Your task to perform on an android device: Open the settings Image 0: 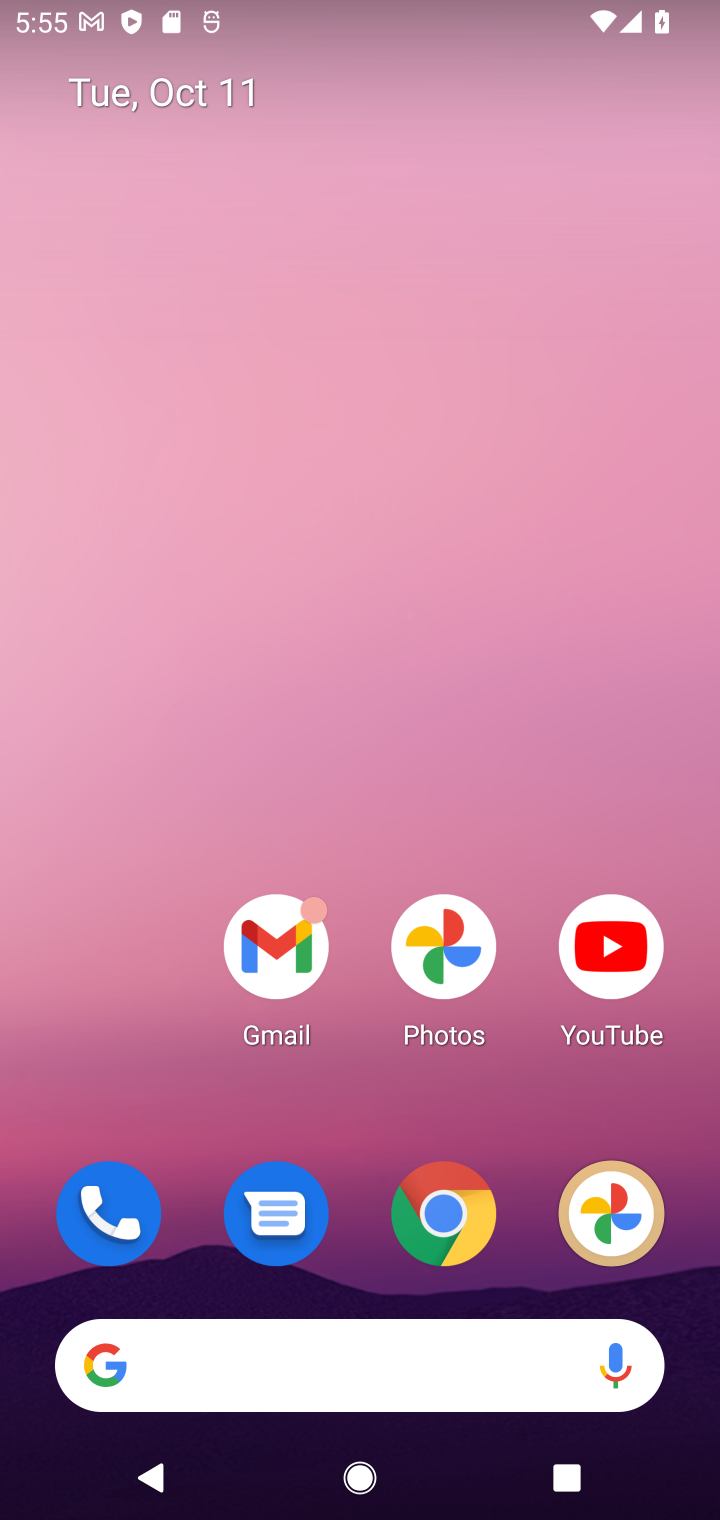
Step 0: click (446, 1226)
Your task to perform on an android device: Open the settings Image 1: 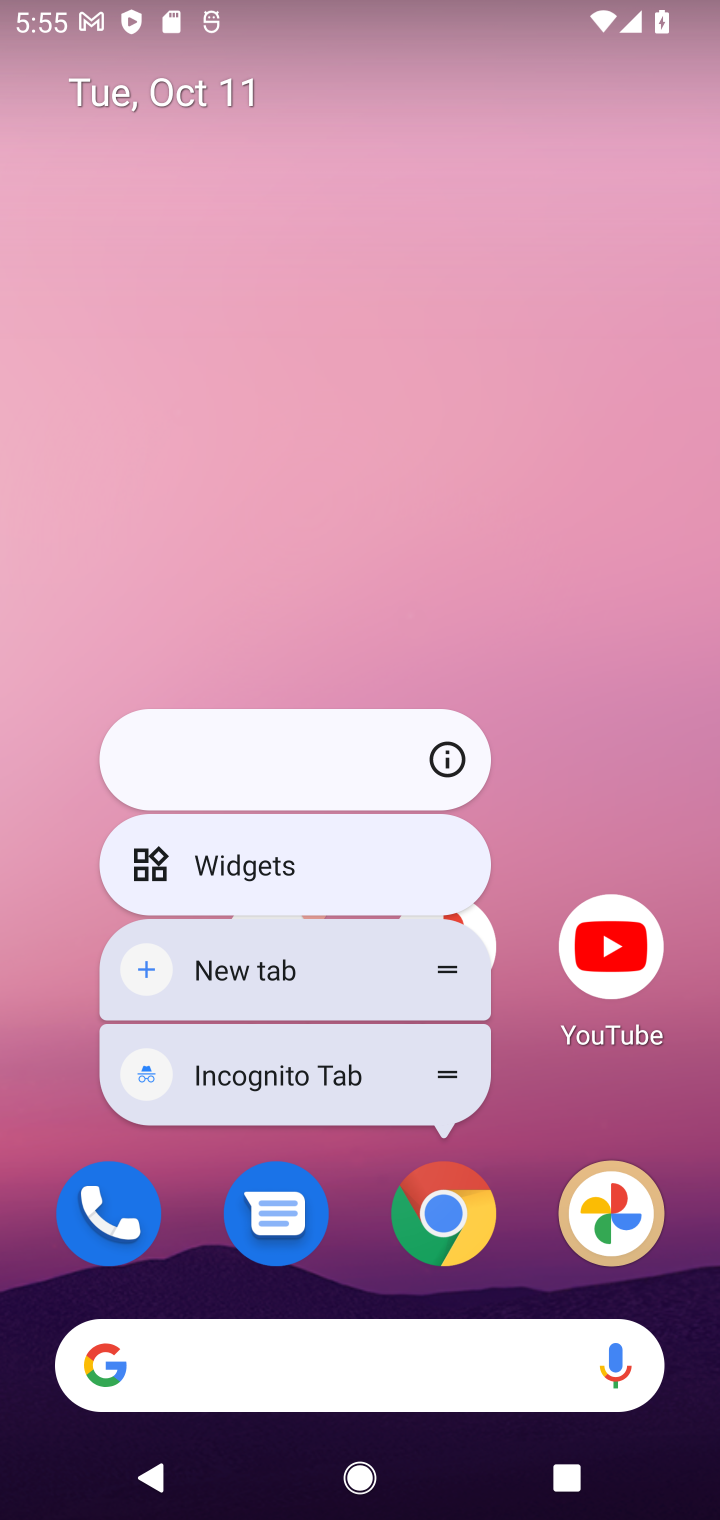
Step 1: click (450, 1249)
Your task to perform on an android device: Open the settings Image 2: 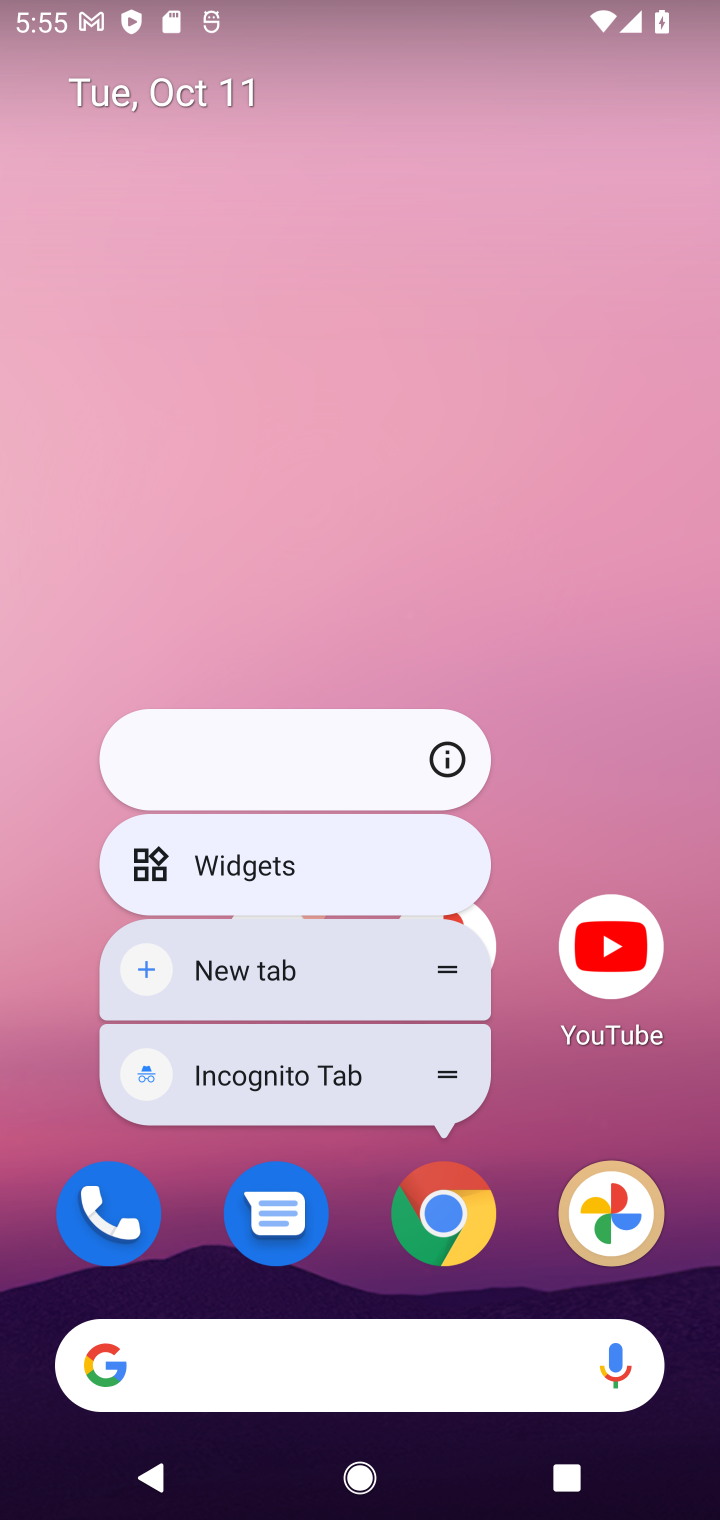
Step 2: drag from (460, 1317) to (501, 6)
Your task to perform on an android device: Open the settings Image 3: 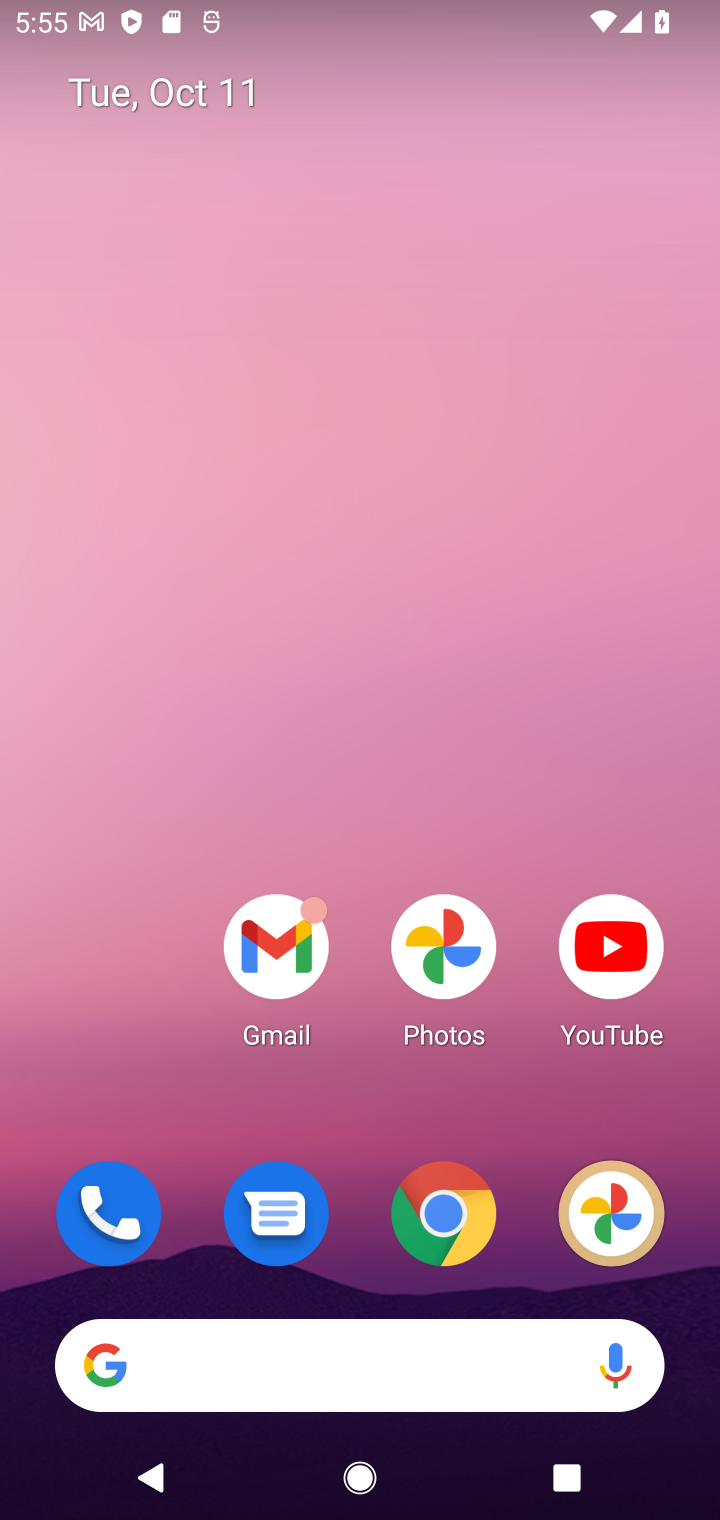
Step 3: drag from (448, 1223) to (386, 208)
Your task to perform on an android device: Open the settings Image 4: 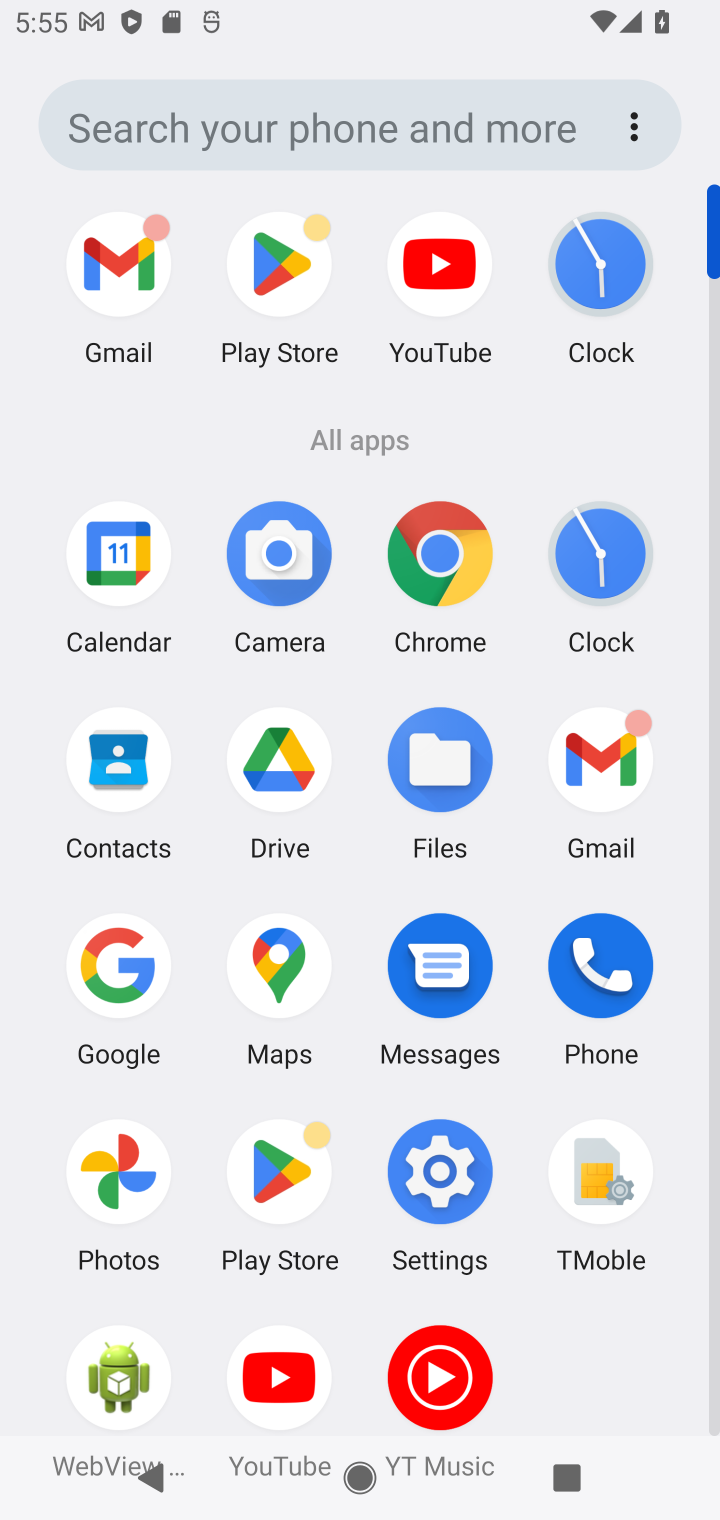
Step 4: click (434, 566)
Your task to perform on an android device: Open the settings Image 5: 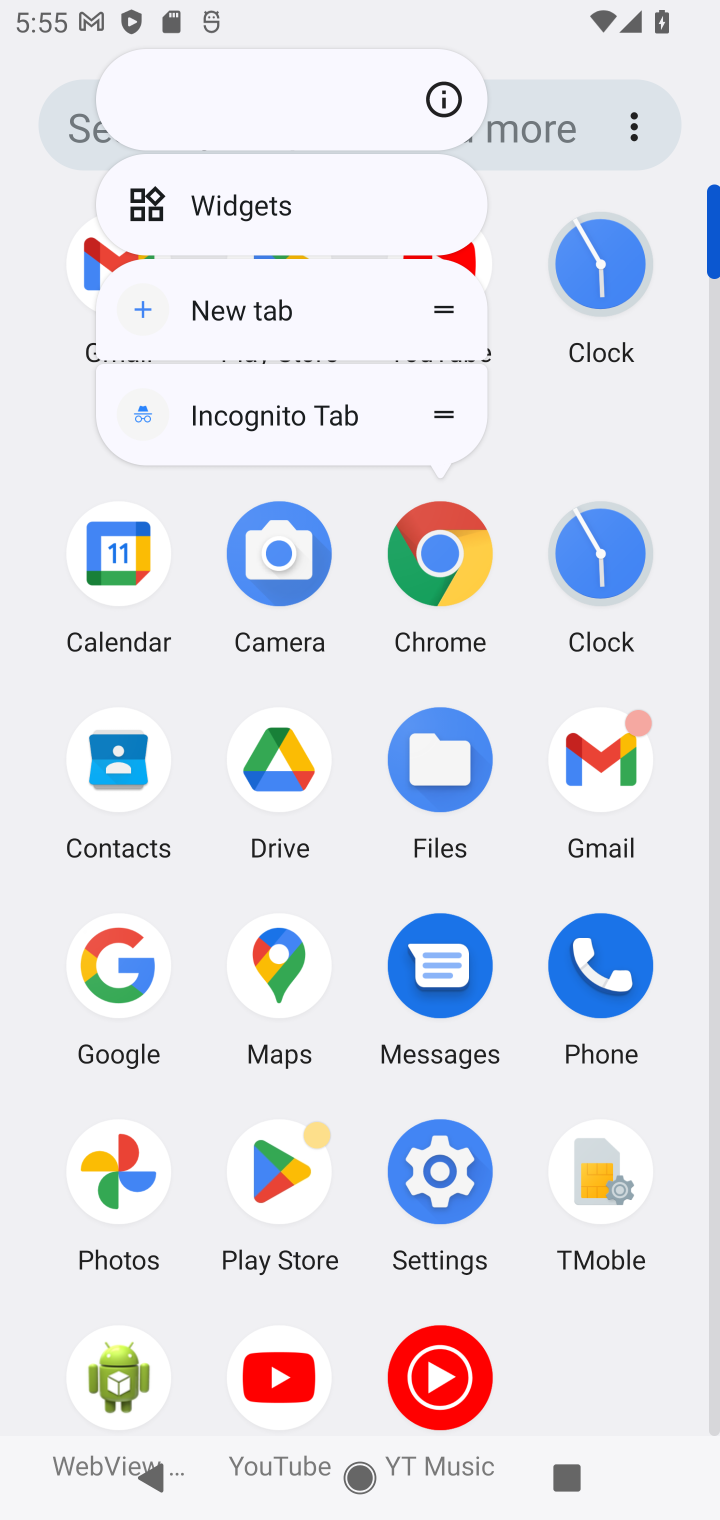
Step 5: click (458, 608)
Your task to perform on an android device: Open the settings Image 6: 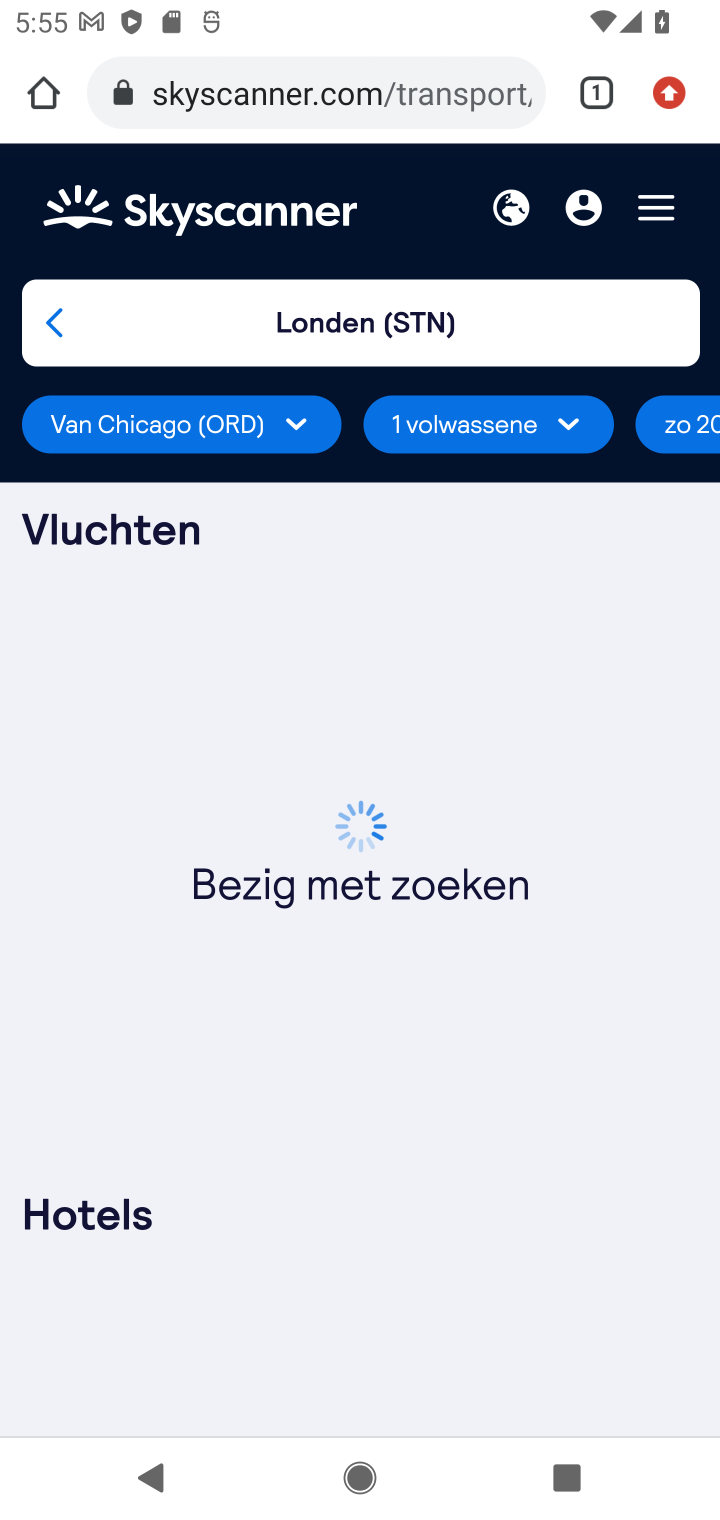
Step 6: click (386, 113)
Your task to perform on an android device: Open the settings Image 7: 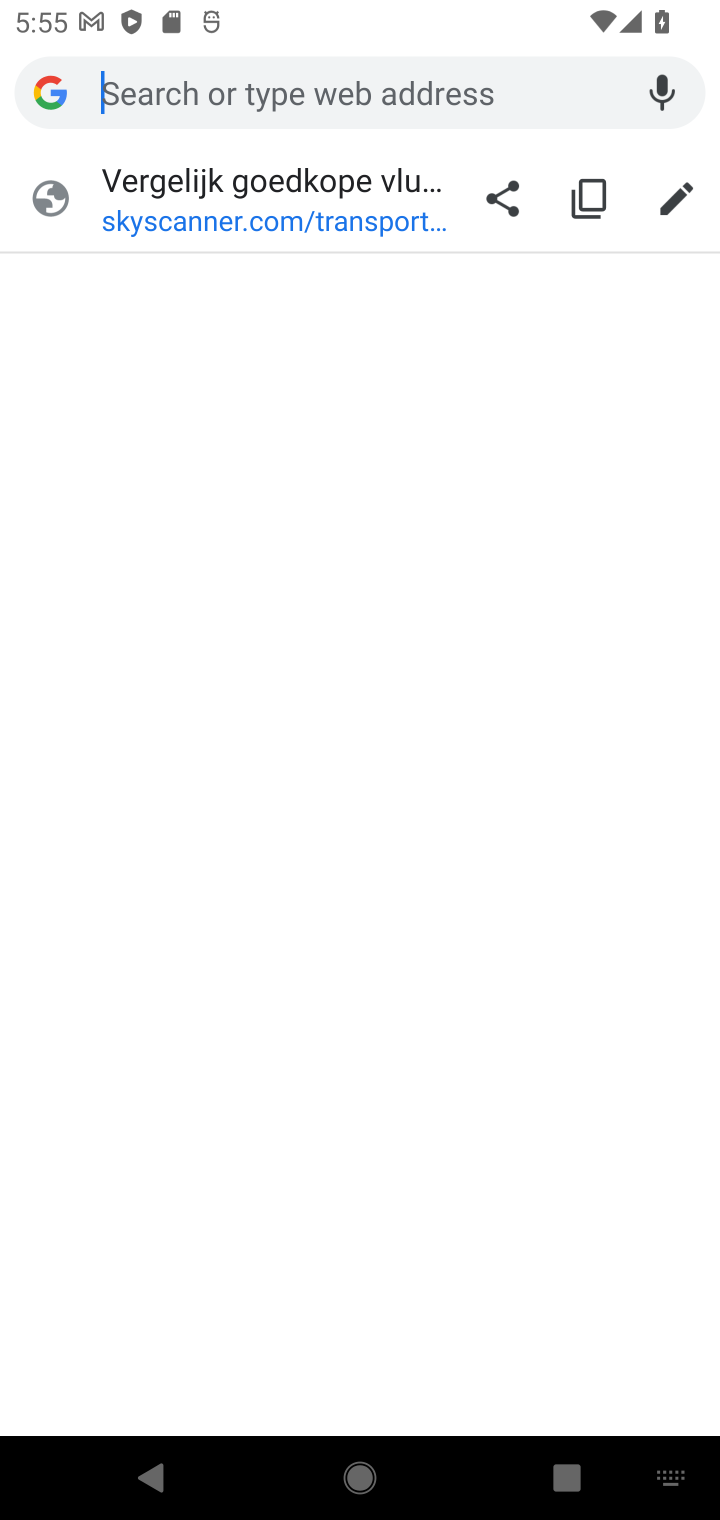
Step 7: press home button
Your task to perform on an android device: Open the settings Image 8: 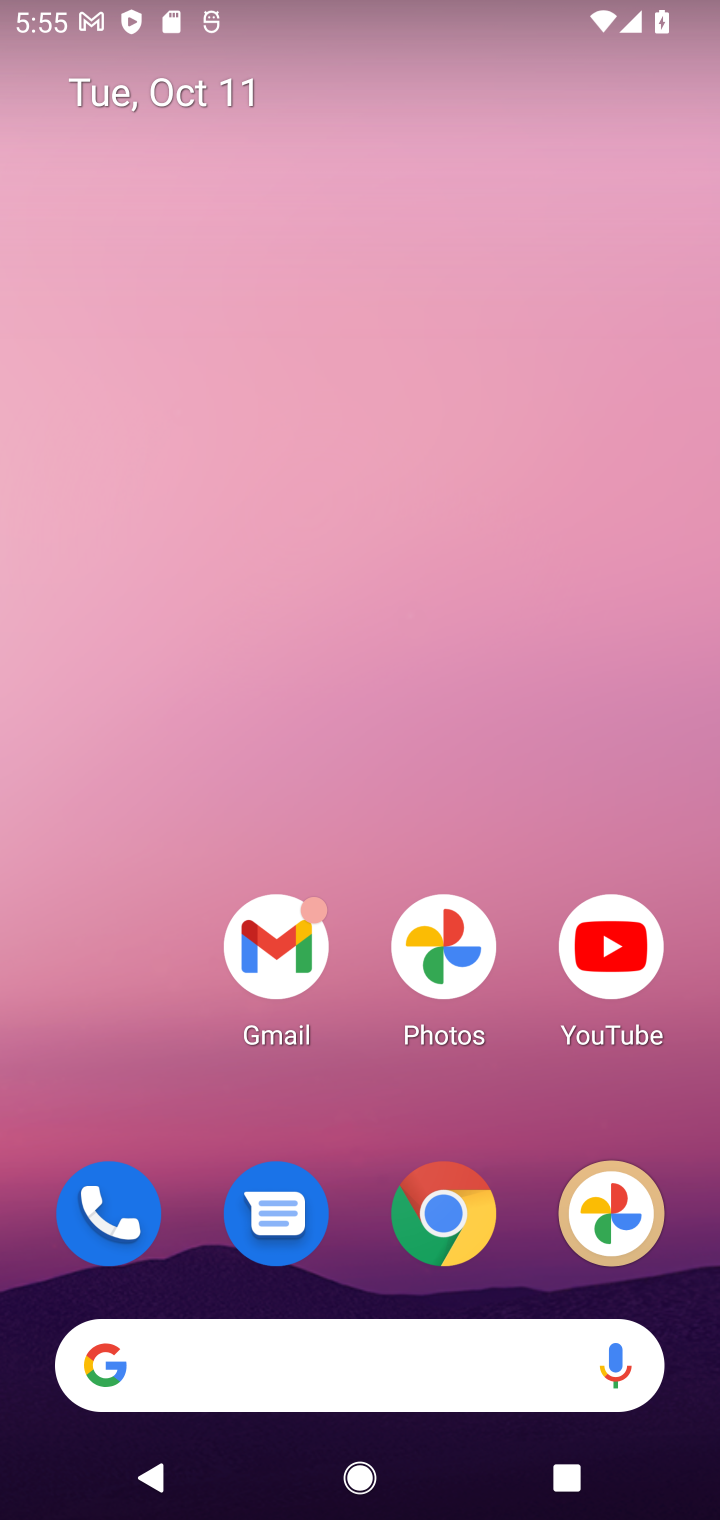
Step 8: drag from (315, 1092) to (429, 123)
Your task to perform on an android device: Open the settings Image 9: 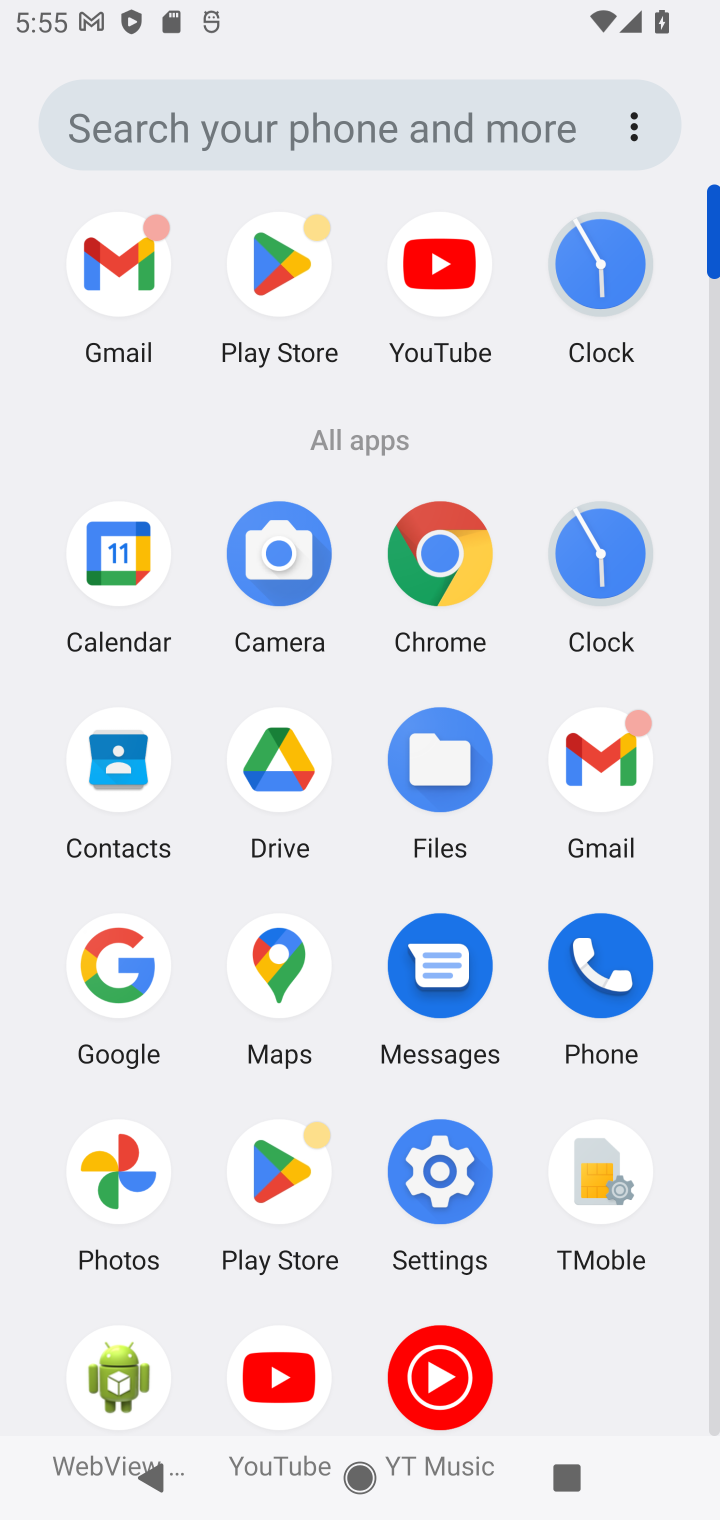
Step 9: click (423, 1167)
Your task to perform on an android device: Open the settings Image 10: 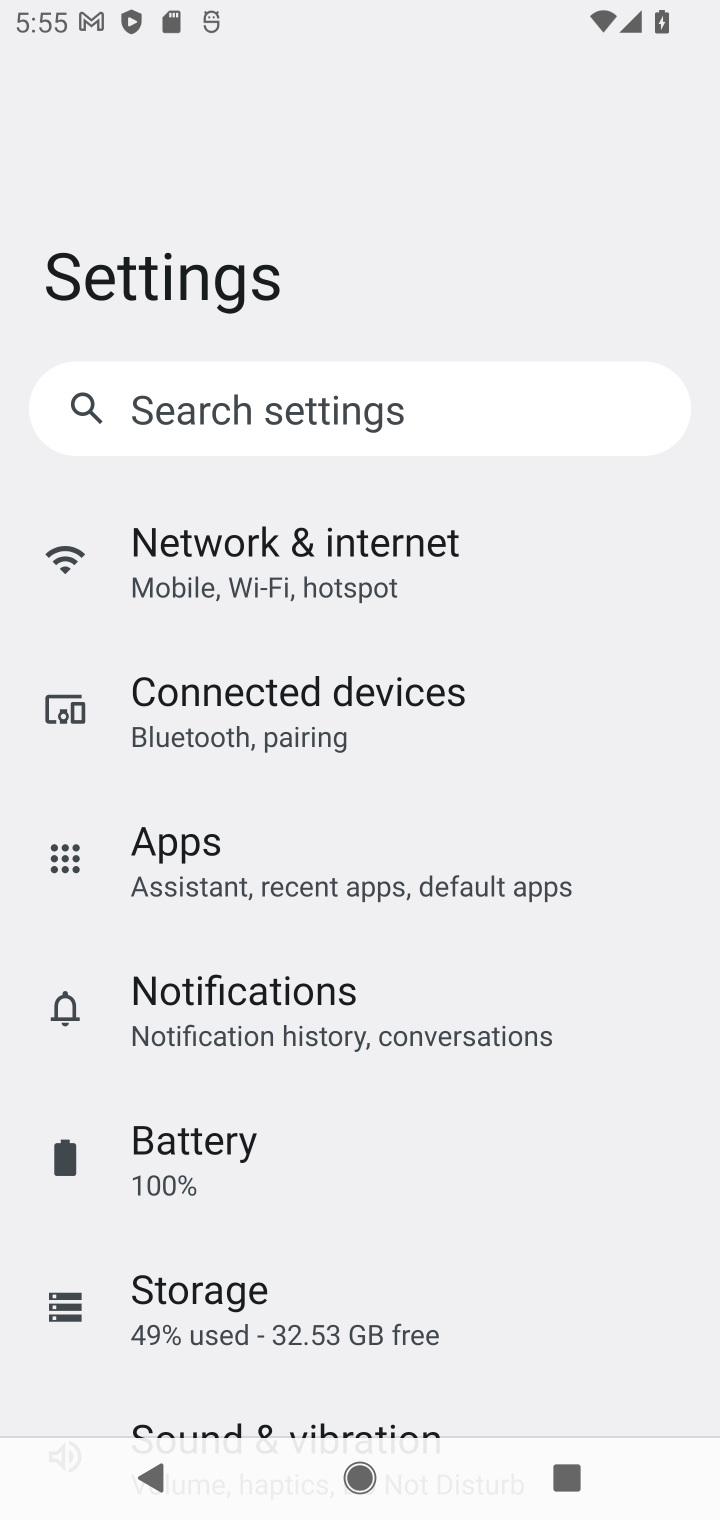
Step 10: drag from (443, 1209) to (487, 522)
Your task to perform on an android device: Open the settings Image 11: 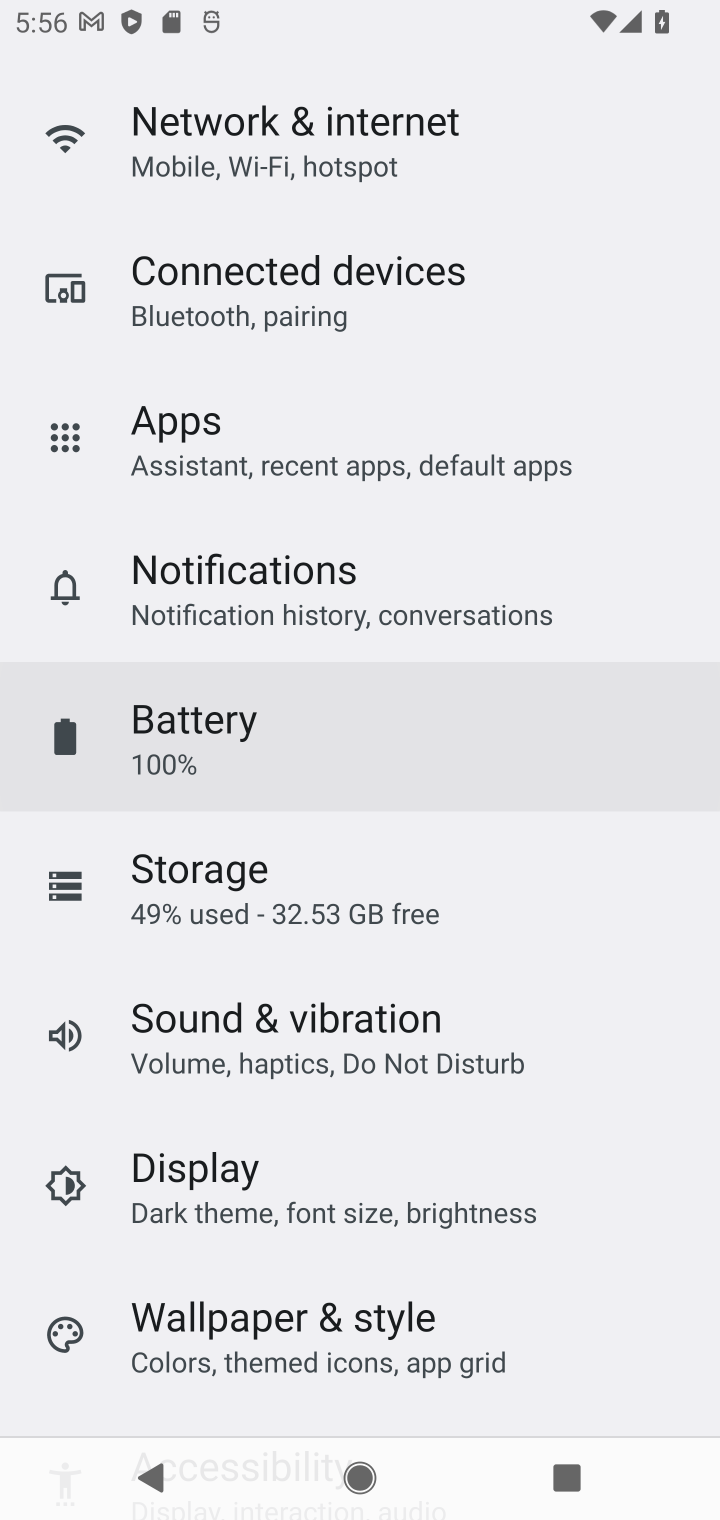
Step 11: drag from (508, 1006) to (540, 450)
Your task to perform on an android device: Open the settings Image 12: 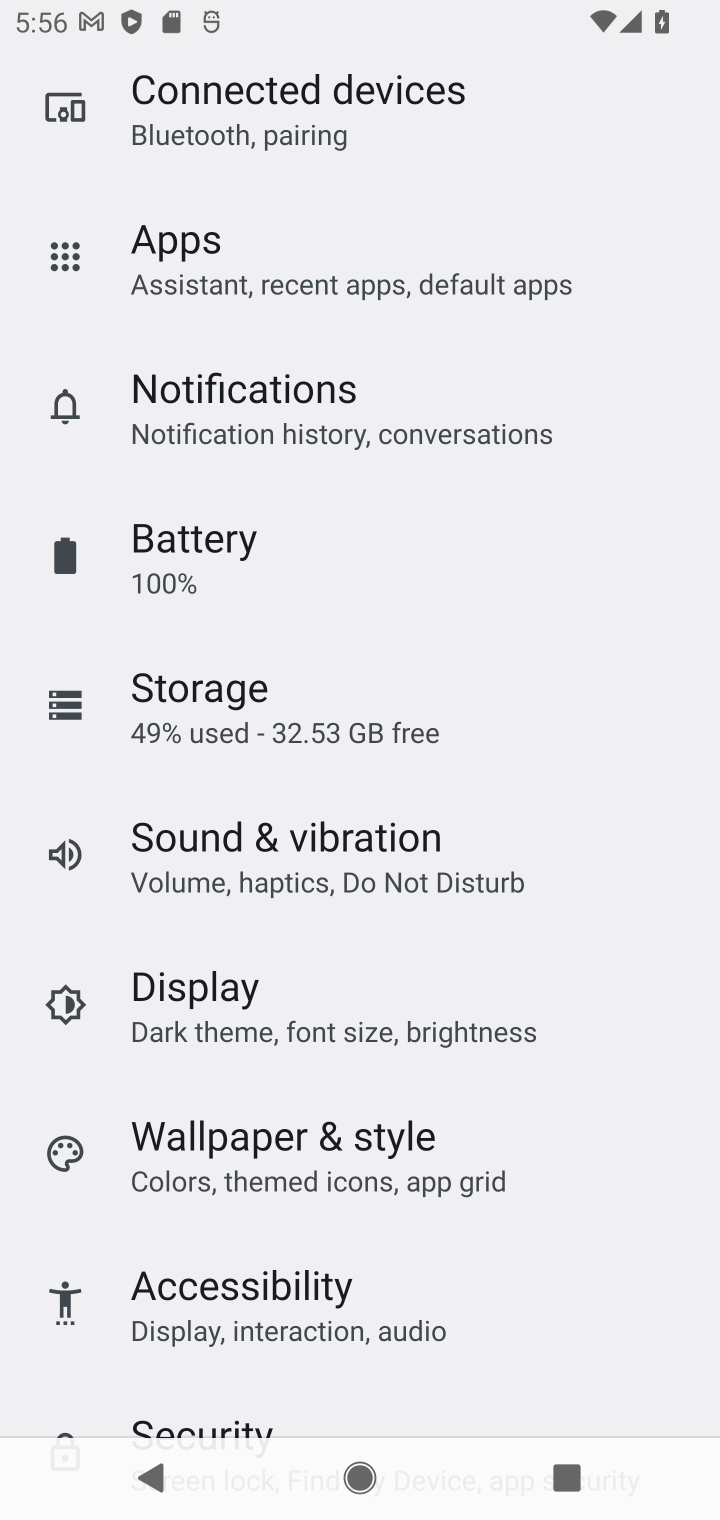
Step 12: click (405, 135)
Your task to perform on an android device: Open the settings Image 13: 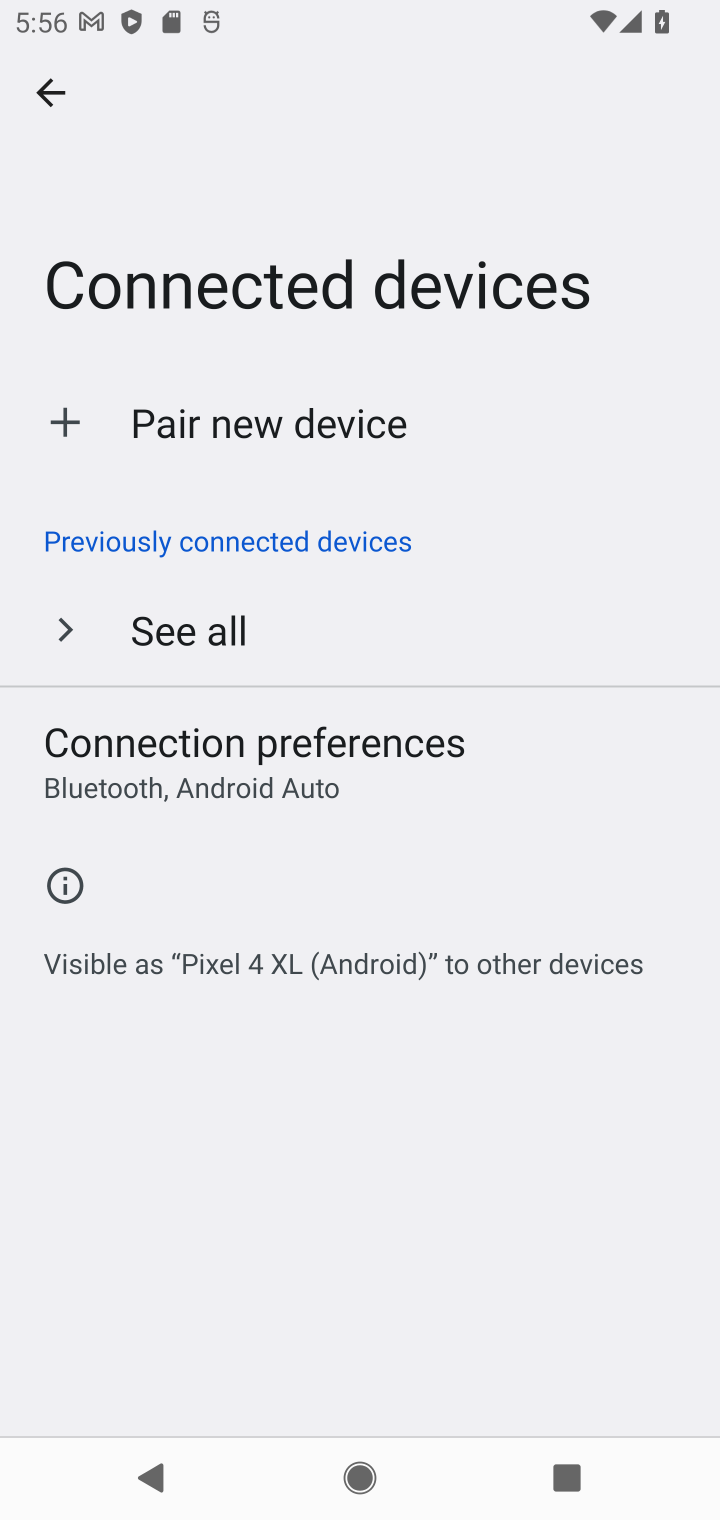
Step 13: press back button
Your task to perform on an android device: Open the settings Image 14: 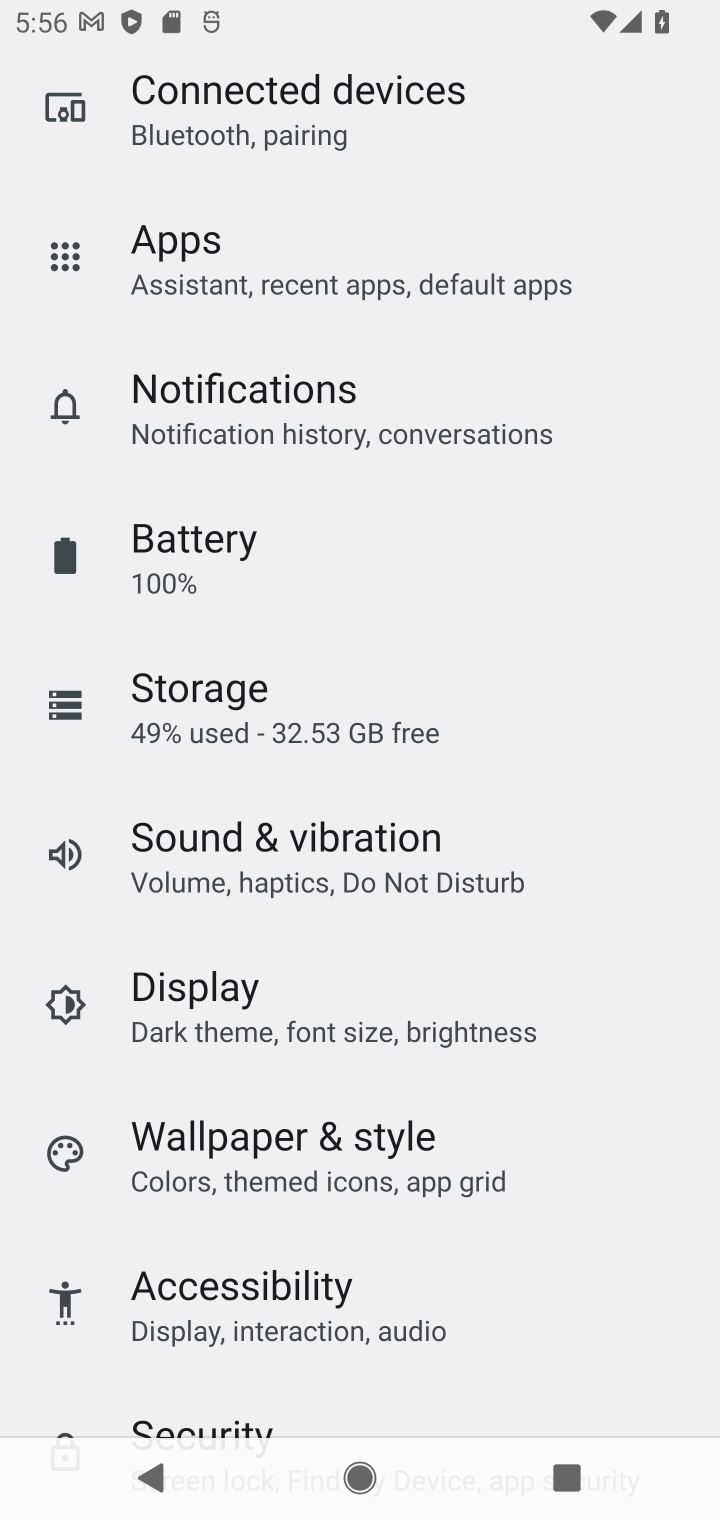
Step 14: click (574, 321)
Your task to perform on an android device: Open the settings Image 15: 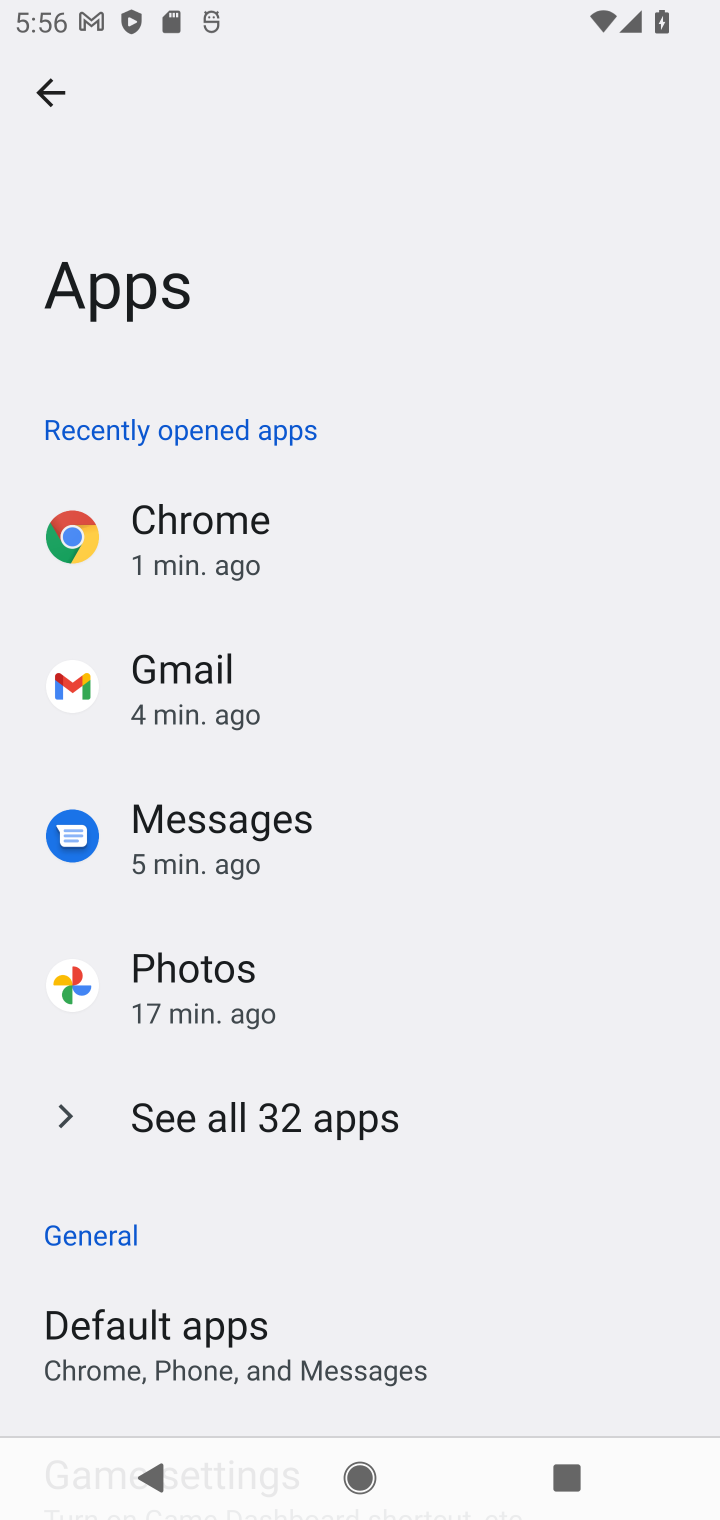
Step 15: click (361, 572)
Your task to perform on an android device: Open the settings Image 16: 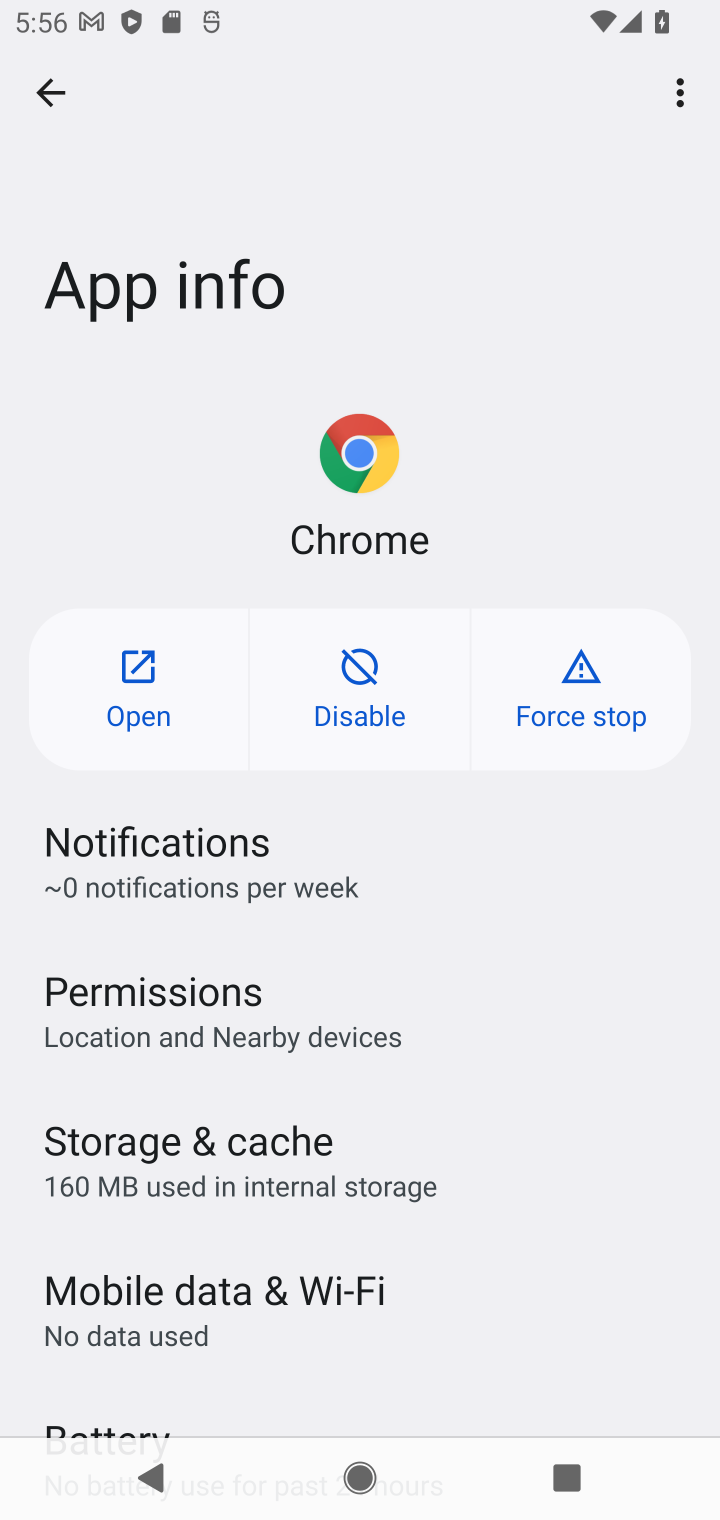
Step 16: drag from (586, 1110) to (532, 553)
Your task to perform on an android device: Open the settings Image 17: 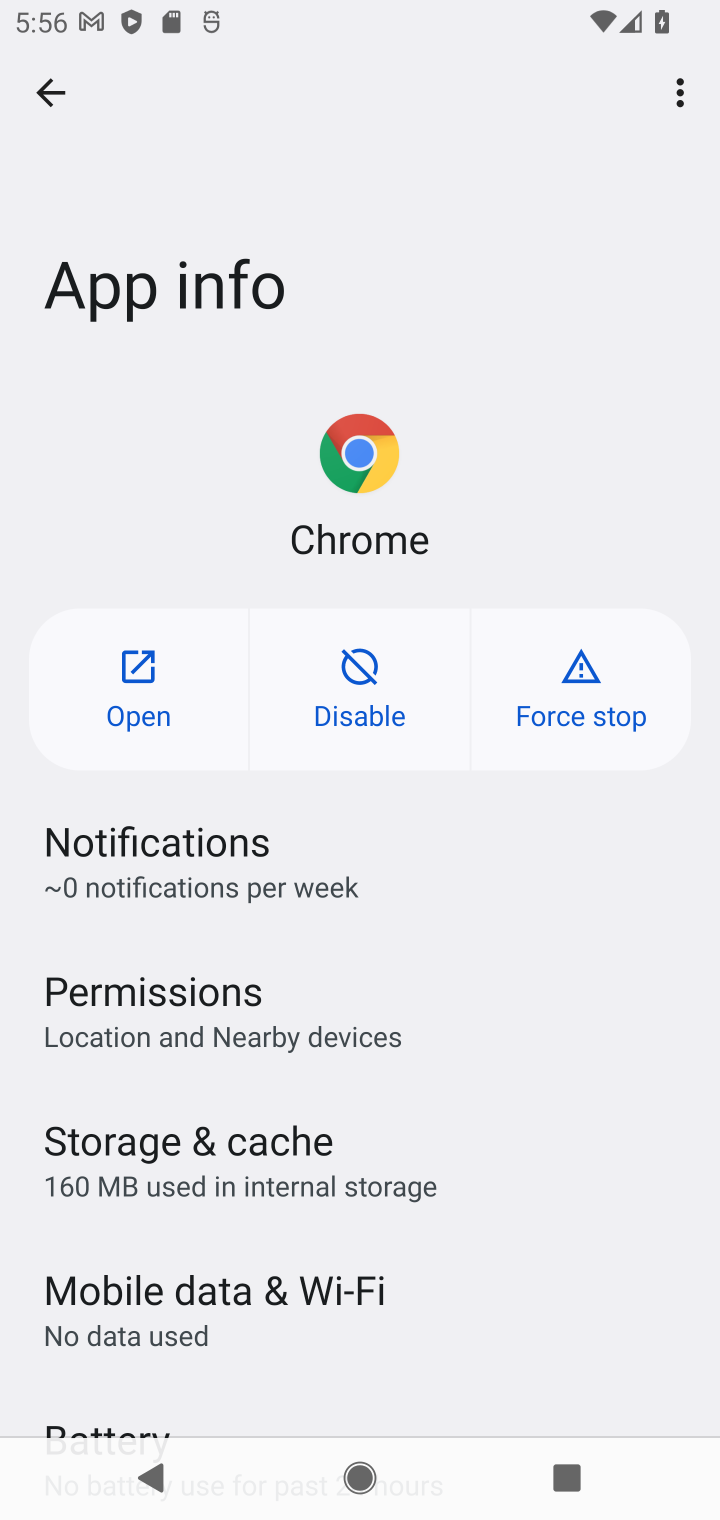
Step 17: drag from (480, 1087) to (601, 410)
Your task to perform on an android device: Open the settings Image 18: 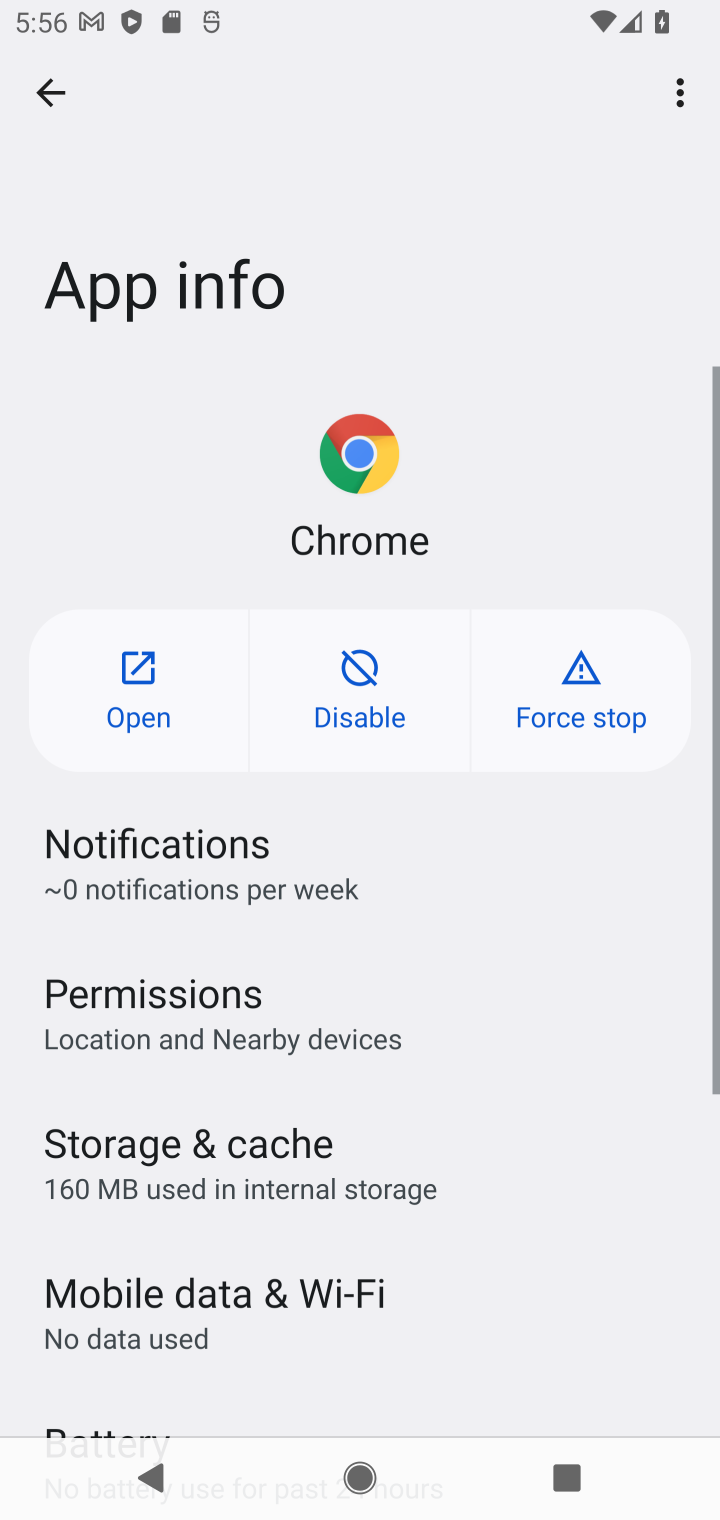
Step 18: drag from (611, 284) to (615, 208)
Your task to perform on an android device: Open the settings Image 19: 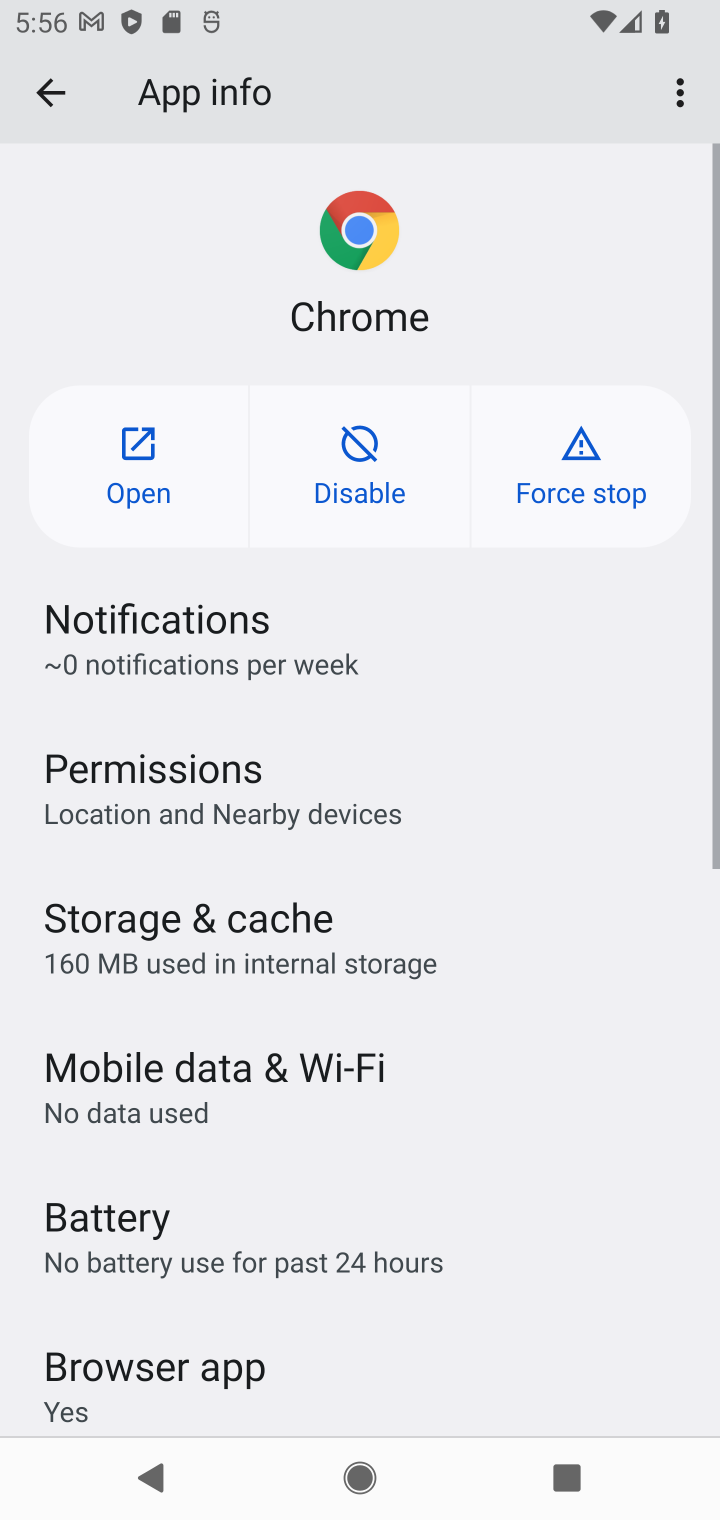
Step 19: drag from (512, 718) to (511, 312)
Your task to perform on an android device: Open the settings Image 20: 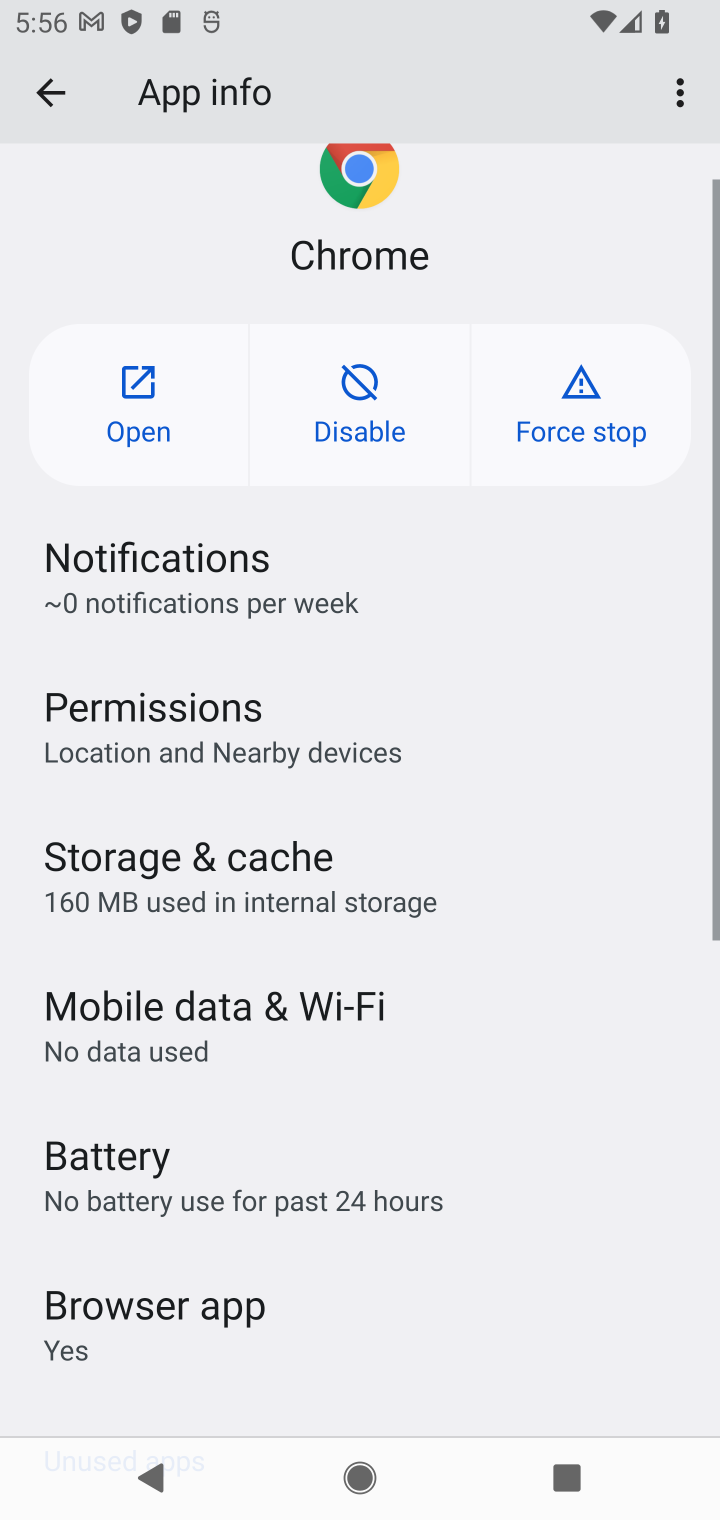
Step 20: drag from (517, 305) to (508, 222)
Your task to perform on an android device: Open the settings Image 21: 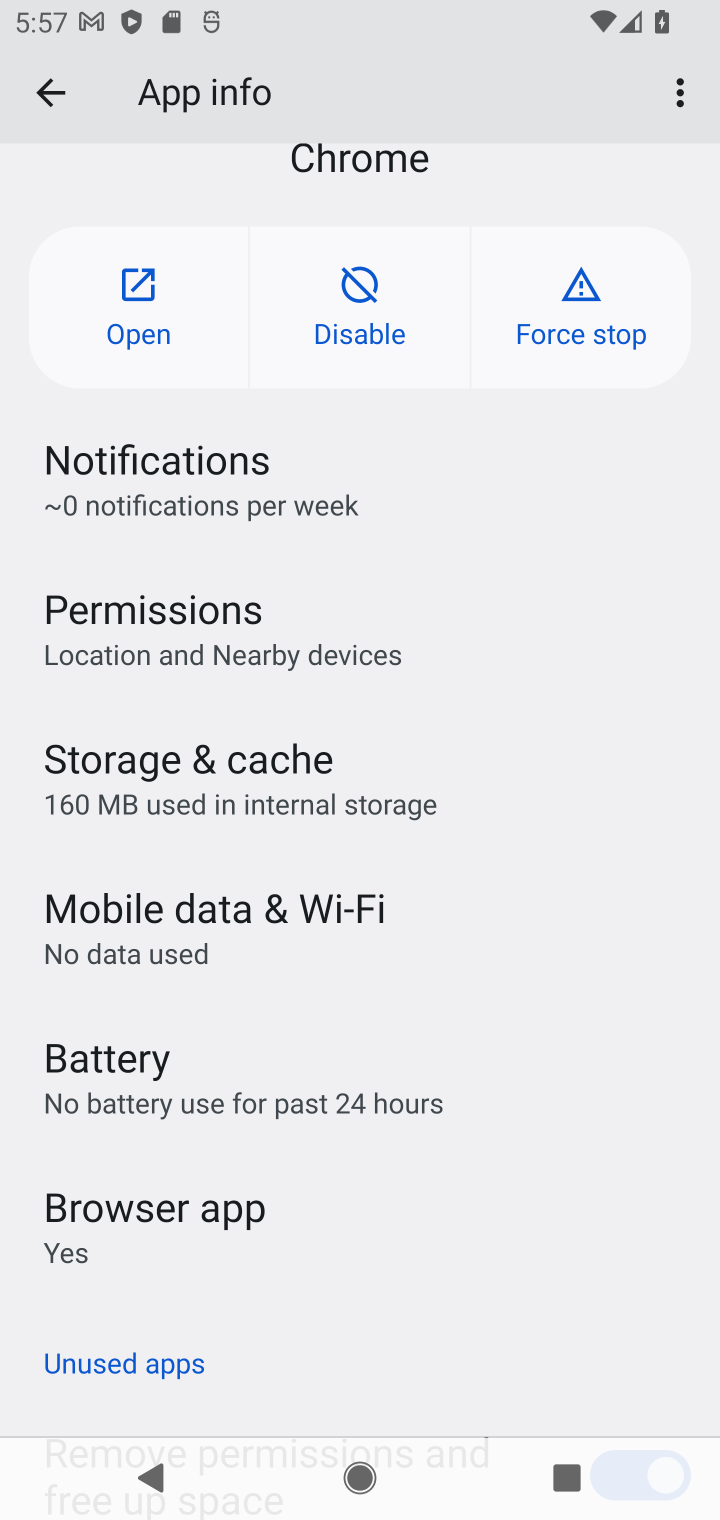
Step 21: click (84, 90)
Your task to perform on an android device: Open the settings Image 22: 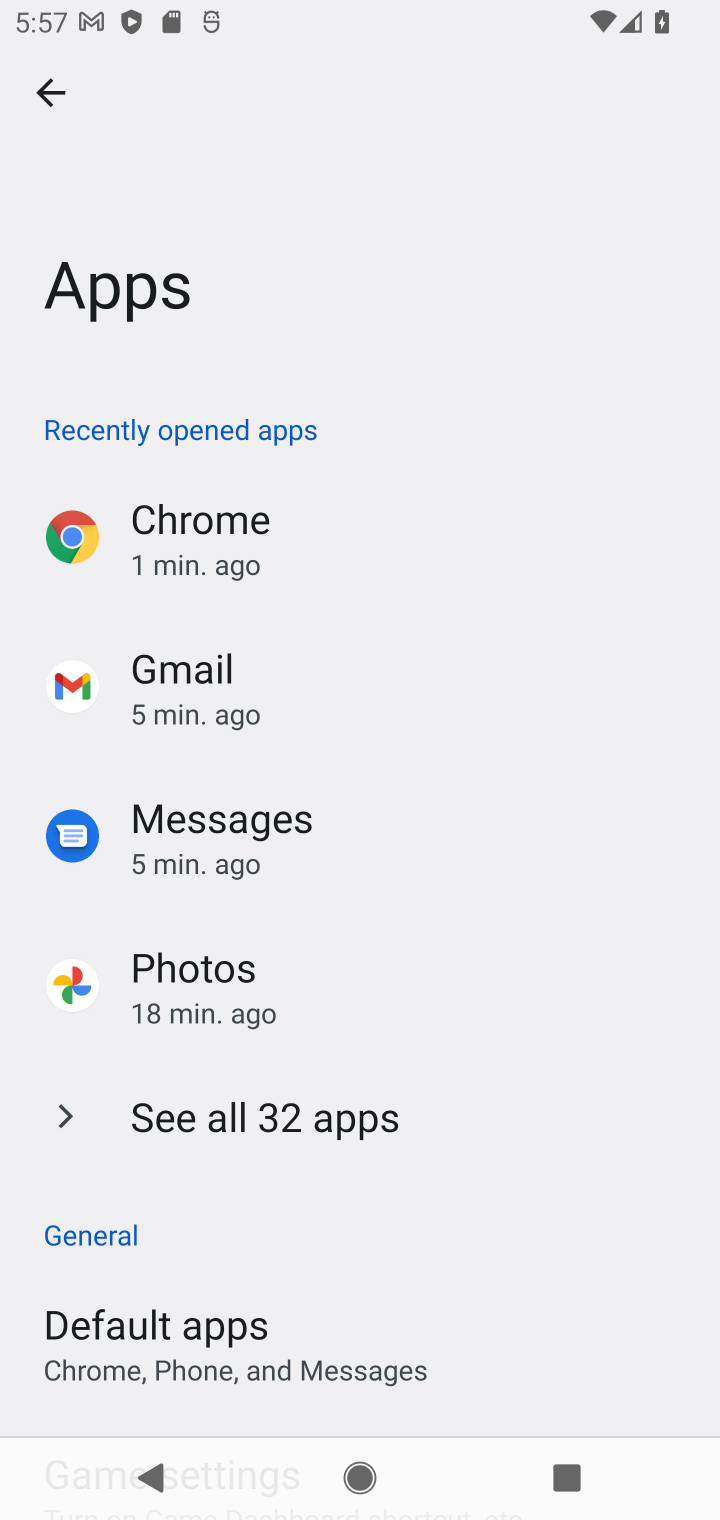
Step 22: click (69, 109)
Your task to perform on an android device: Open the settings Image 23: 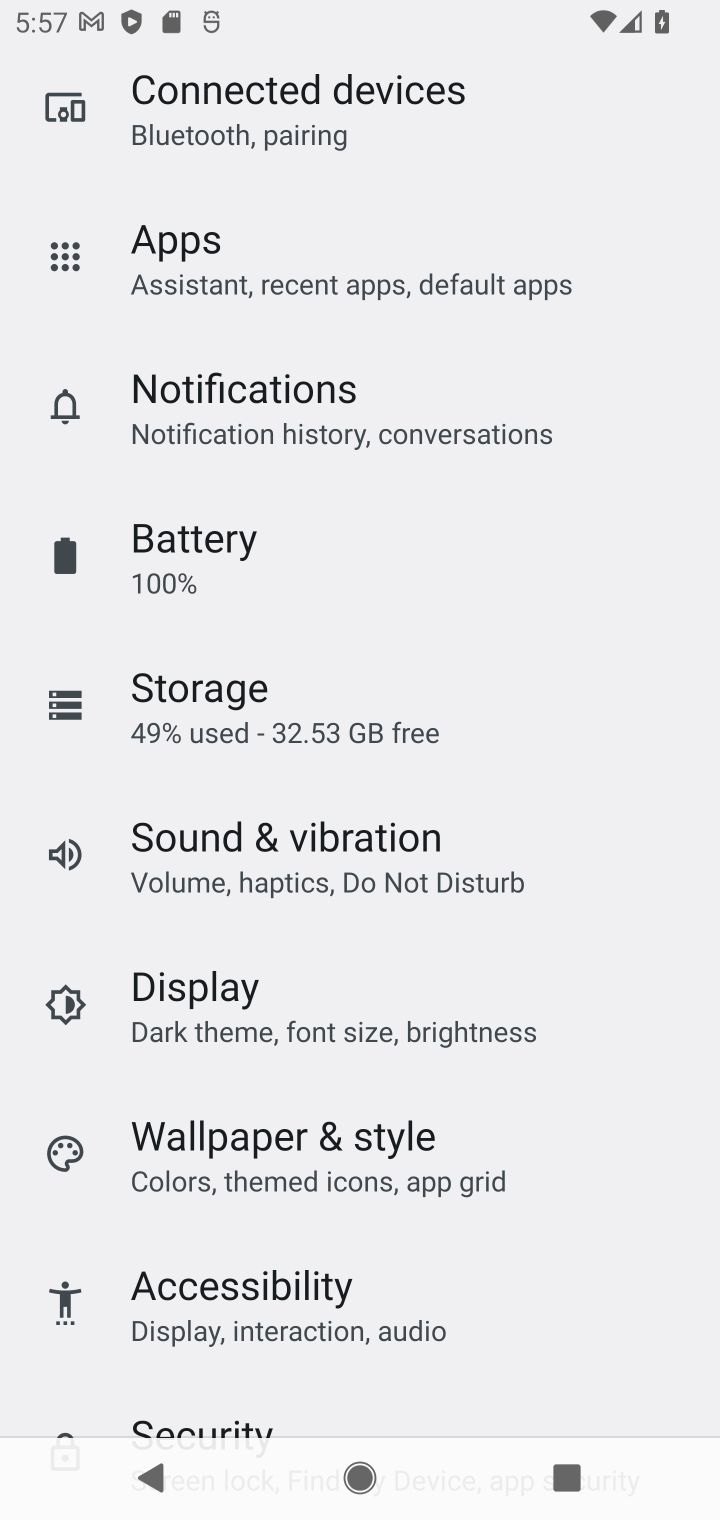
Step 23: click (268, 734)
Your task to perform on an android device: Open the settings Image 24: 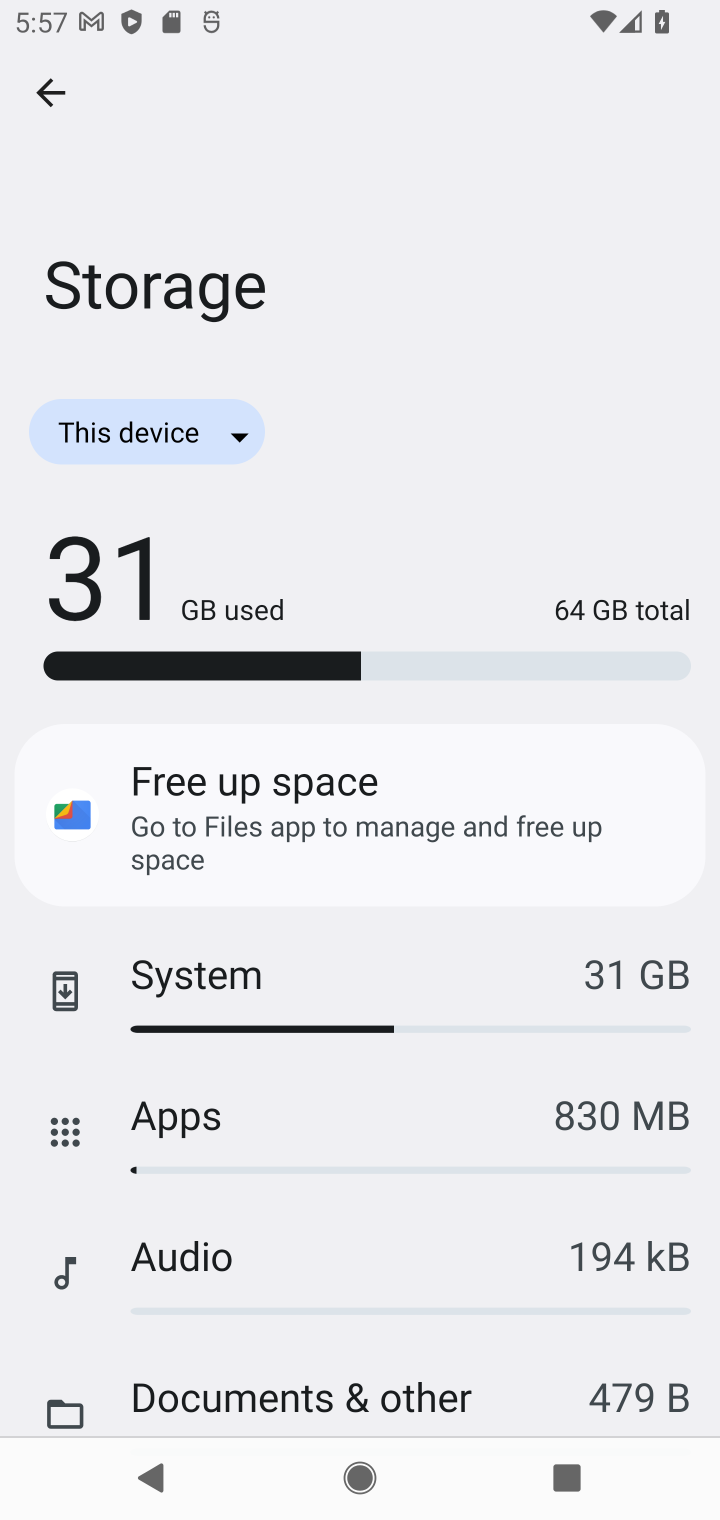
Step 24: drag from (279, 840) to (326, 135)
Your task to perform on an android device: Open the settings Image 25: 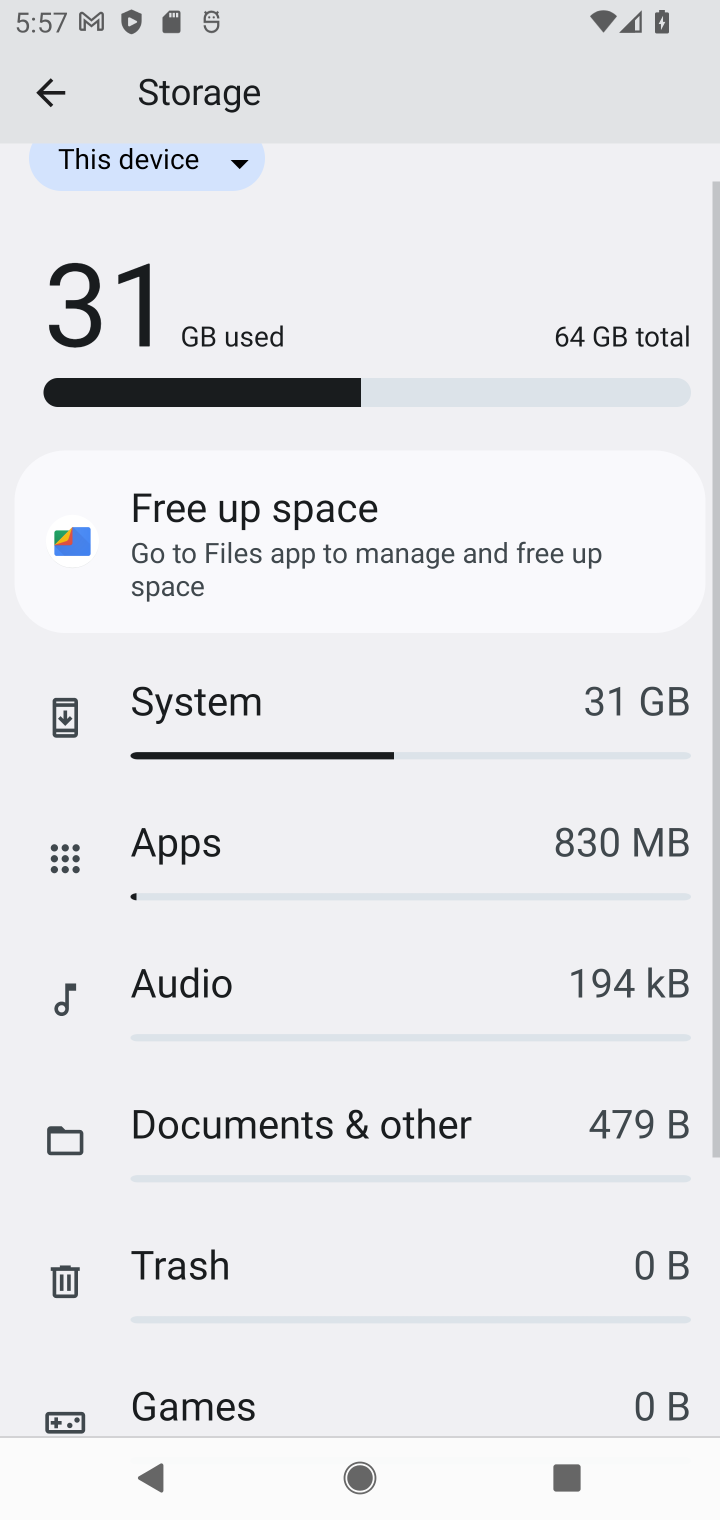
Step 25: drag from (318, 847) to (349, 454)
Your task to perform on an android device: Open the settings Image 26: 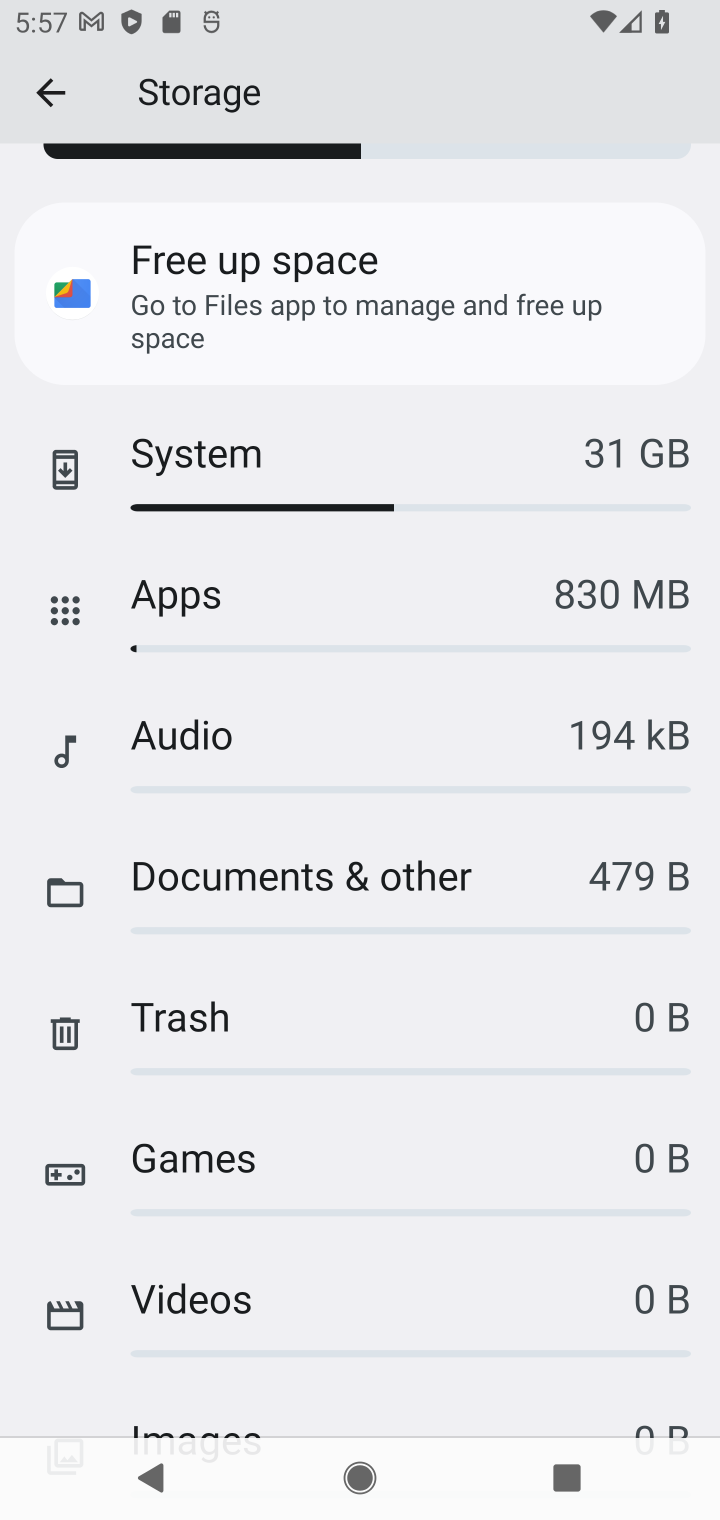
Step 26: drag from (303, 870) to (363, 476)
Your task to perform on an android device: Open the settings Image 27: 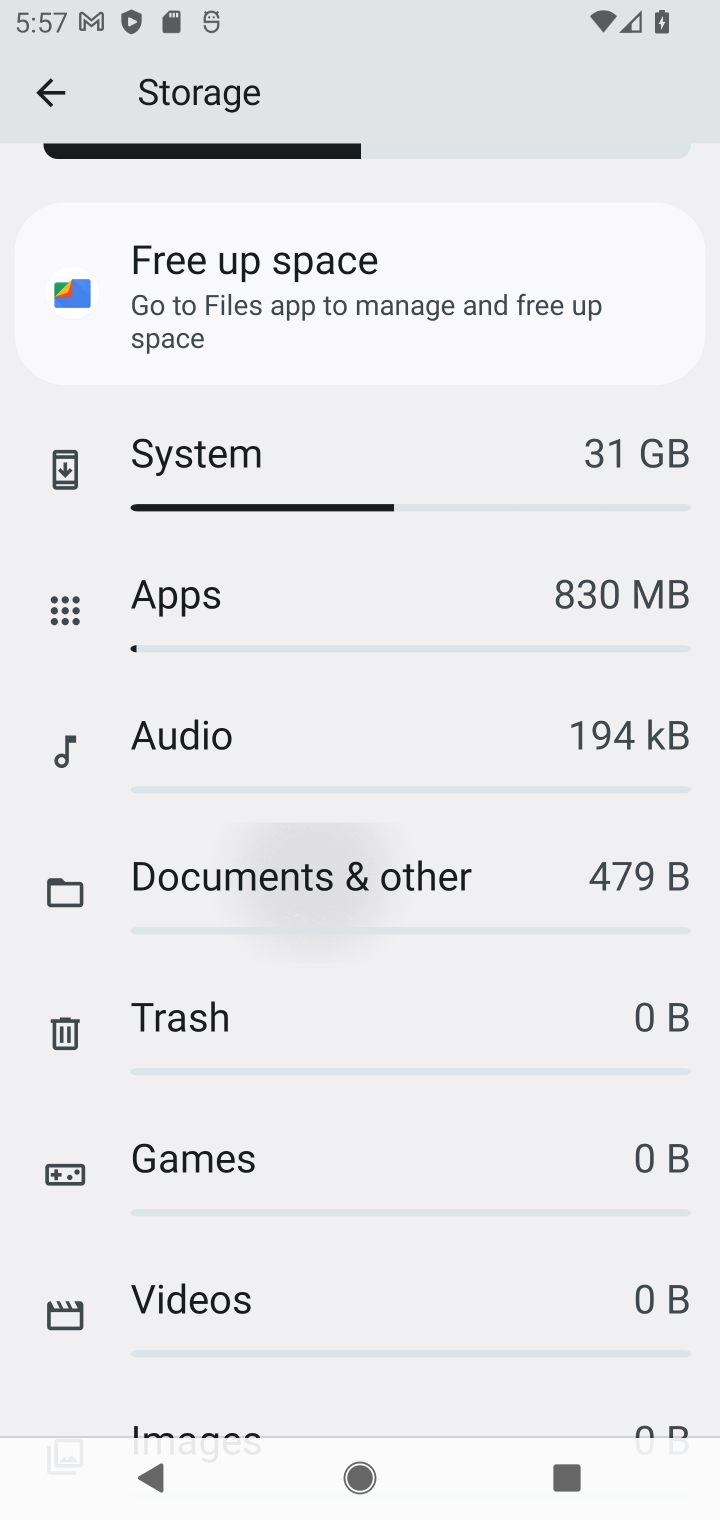
Step 27: drag from (401, 757) to (419, 508)
Your task to perform on an android device: Open the settings Image 28: 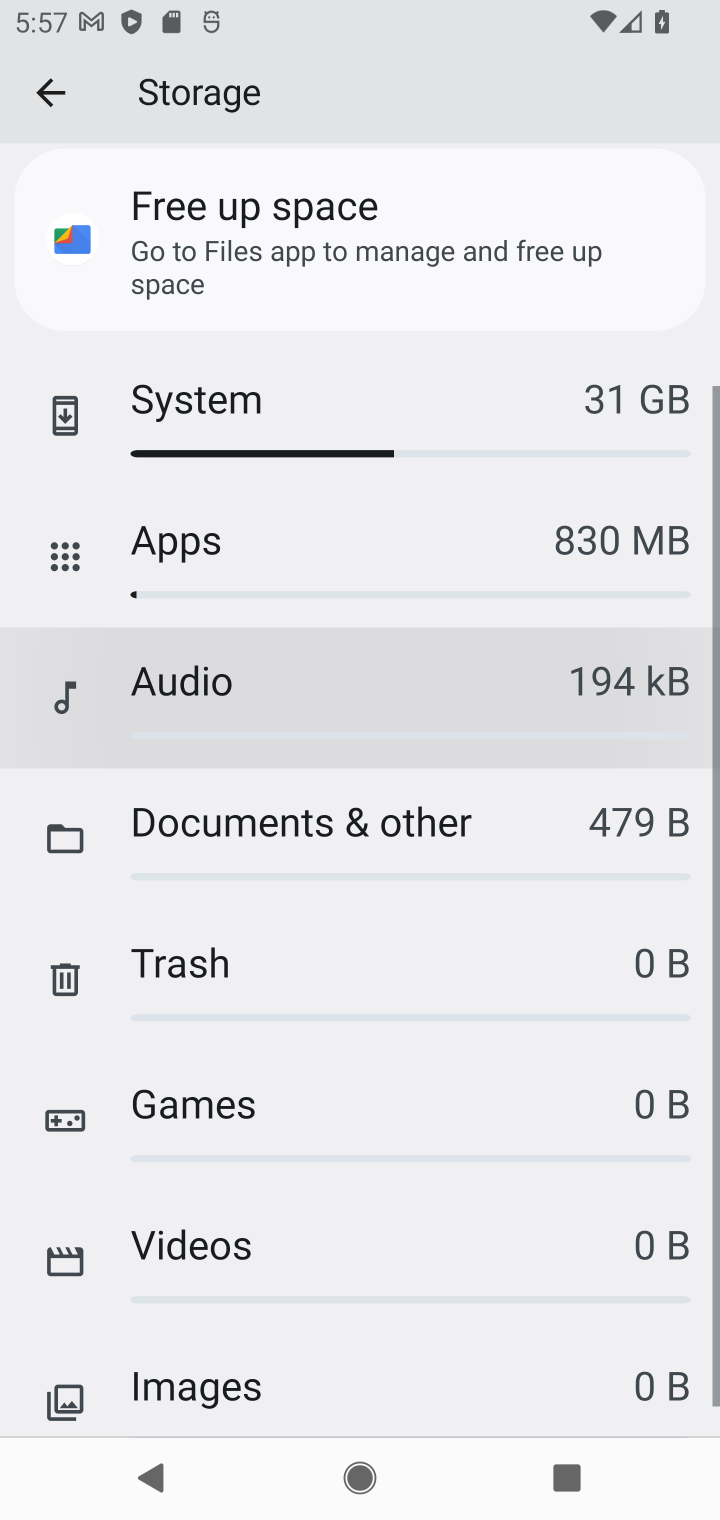
Step 28: drag from (409, 670) to (424, 409)
Your task to perform on an android device: Open the settings Image 29: 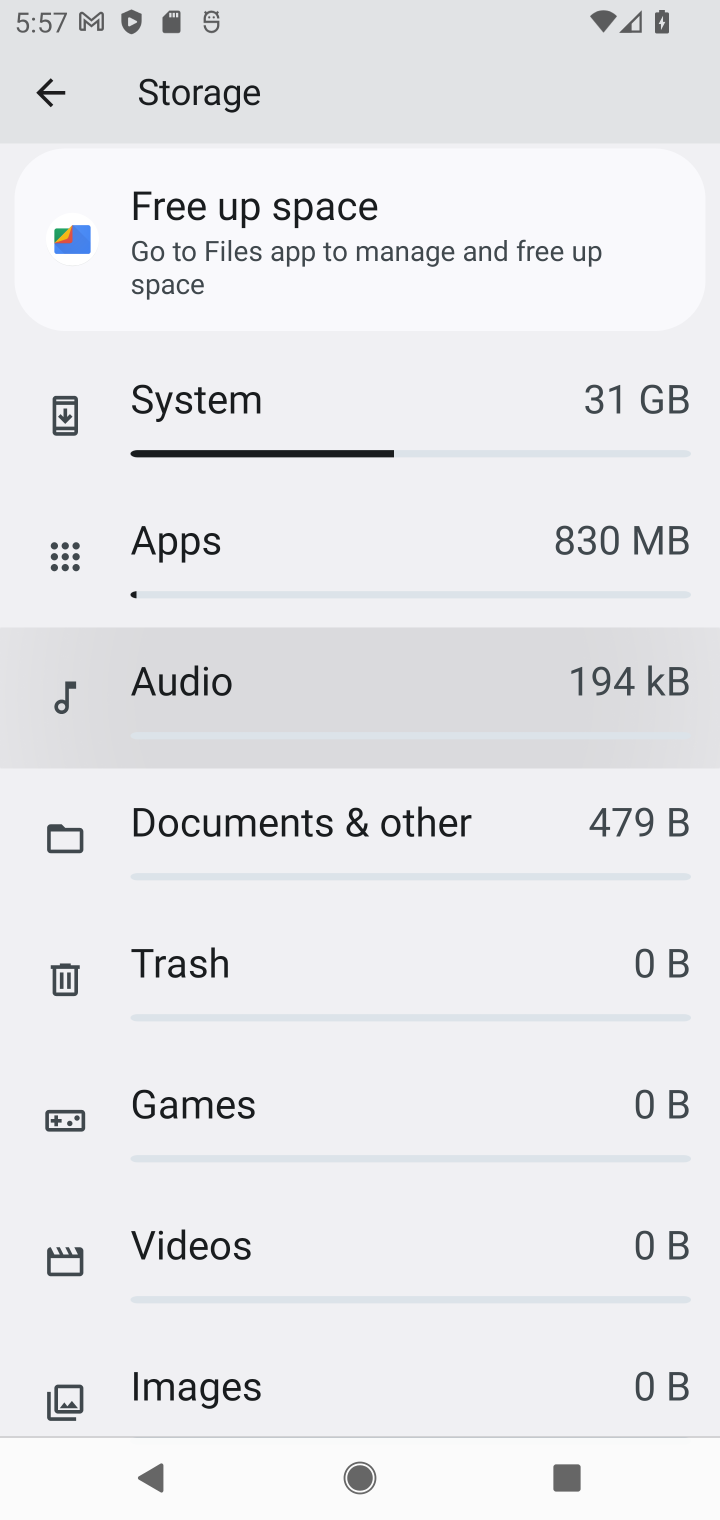
Step 29: click (292, 904)
Your task to perform on an android device: Open the settings Image 30: 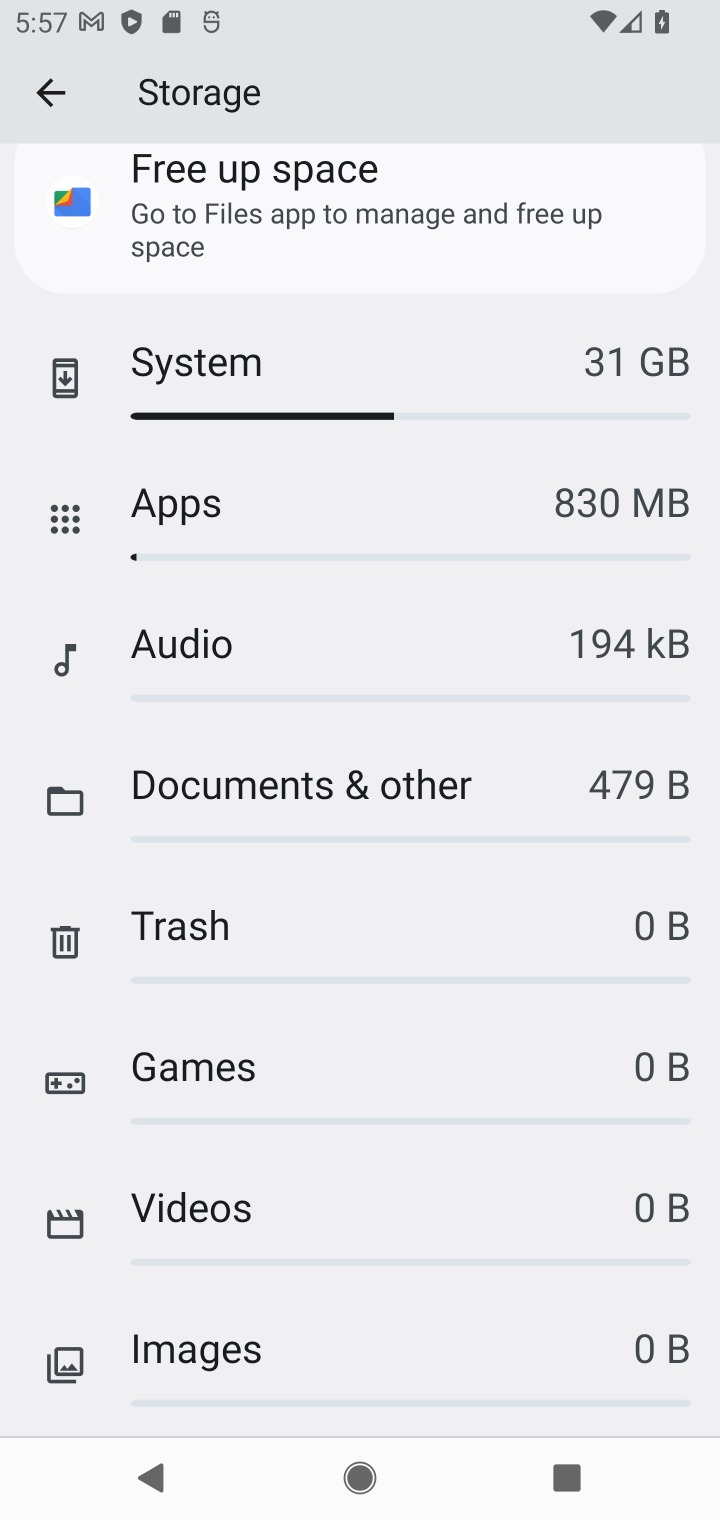
Step 30: drag from (356, 826) to (439, 519)
Your task to perform on an android device: Open the settings Image 31: 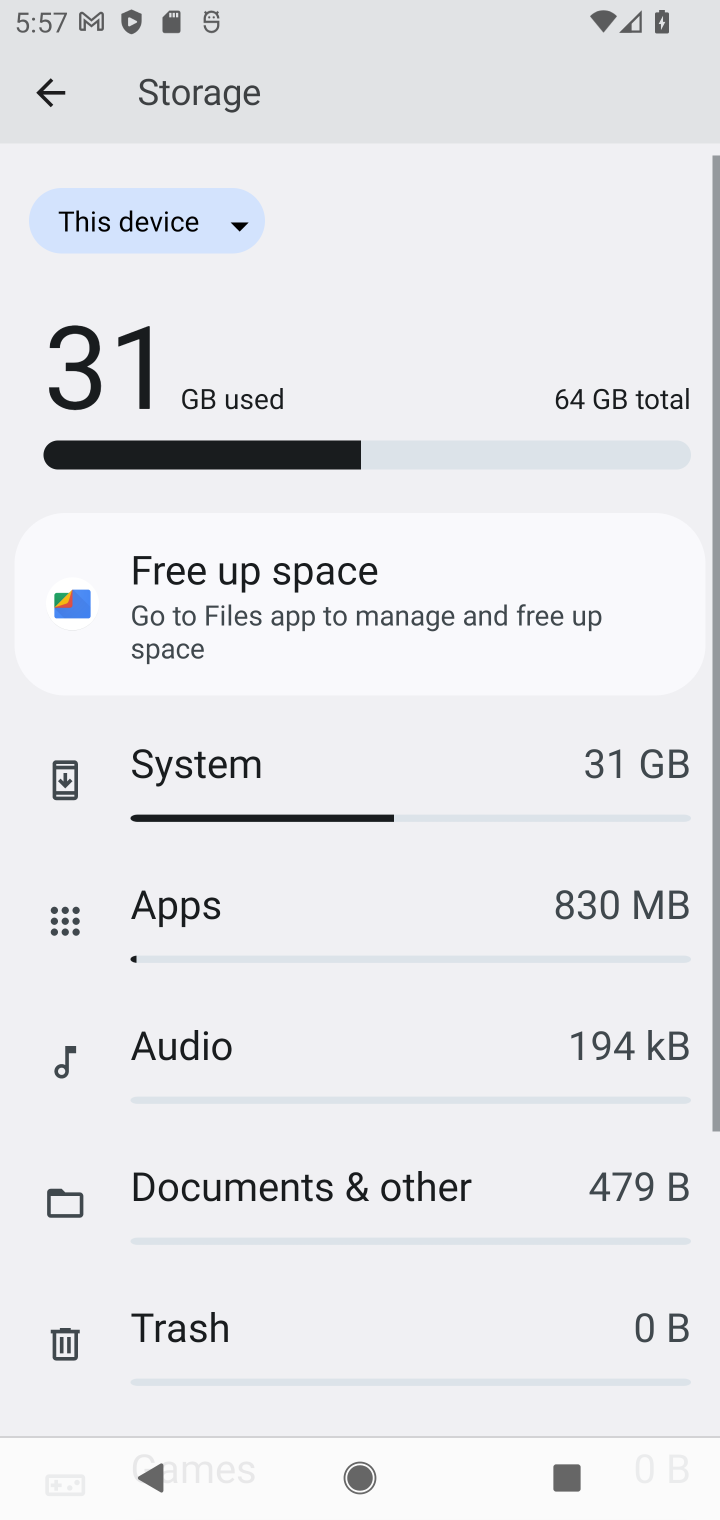
Step 31: drag from (480, 682) to (486, 355)
Your task to perform on an android device: Open the settings Image 32: 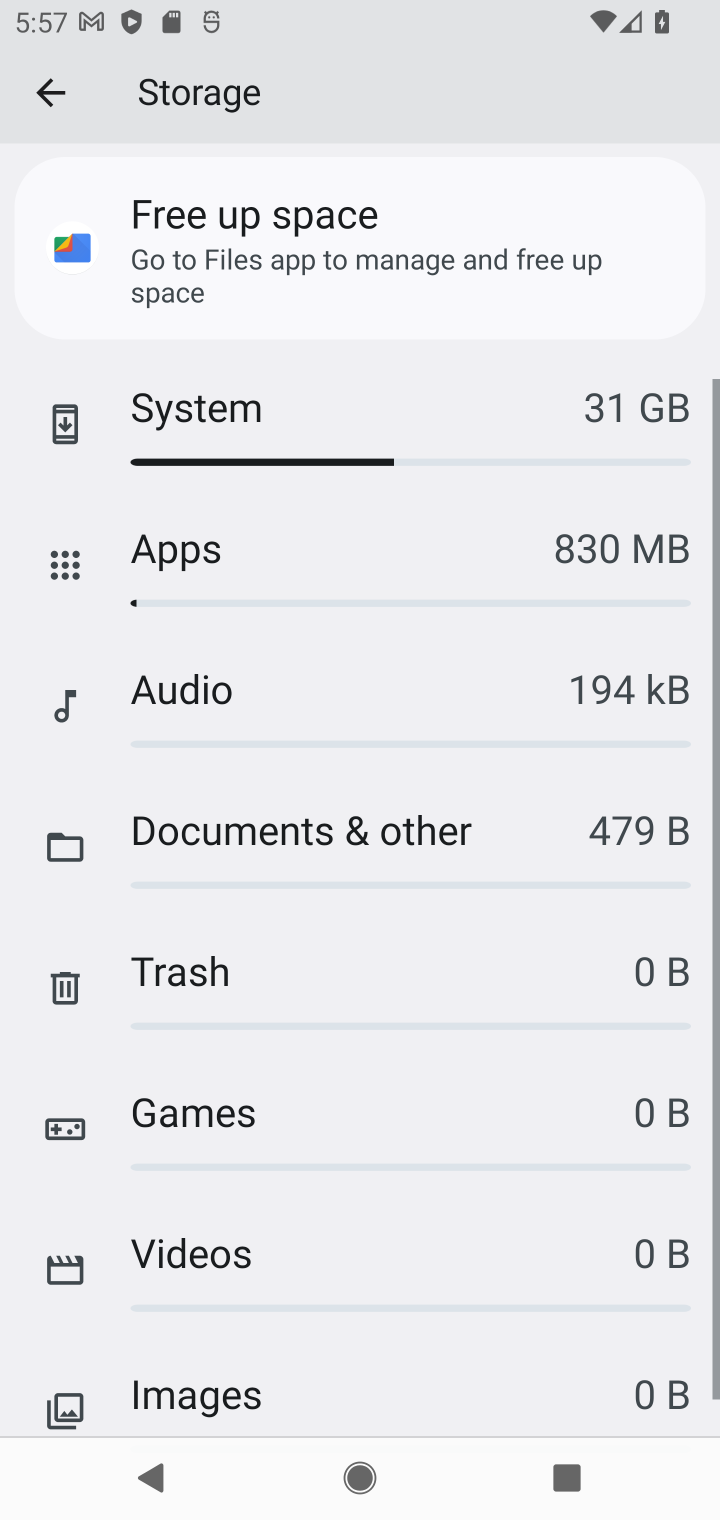
Step 32: drag from (538, 587) to (549, 518)
Your task to perform on an android device: Open the settings Image 33: 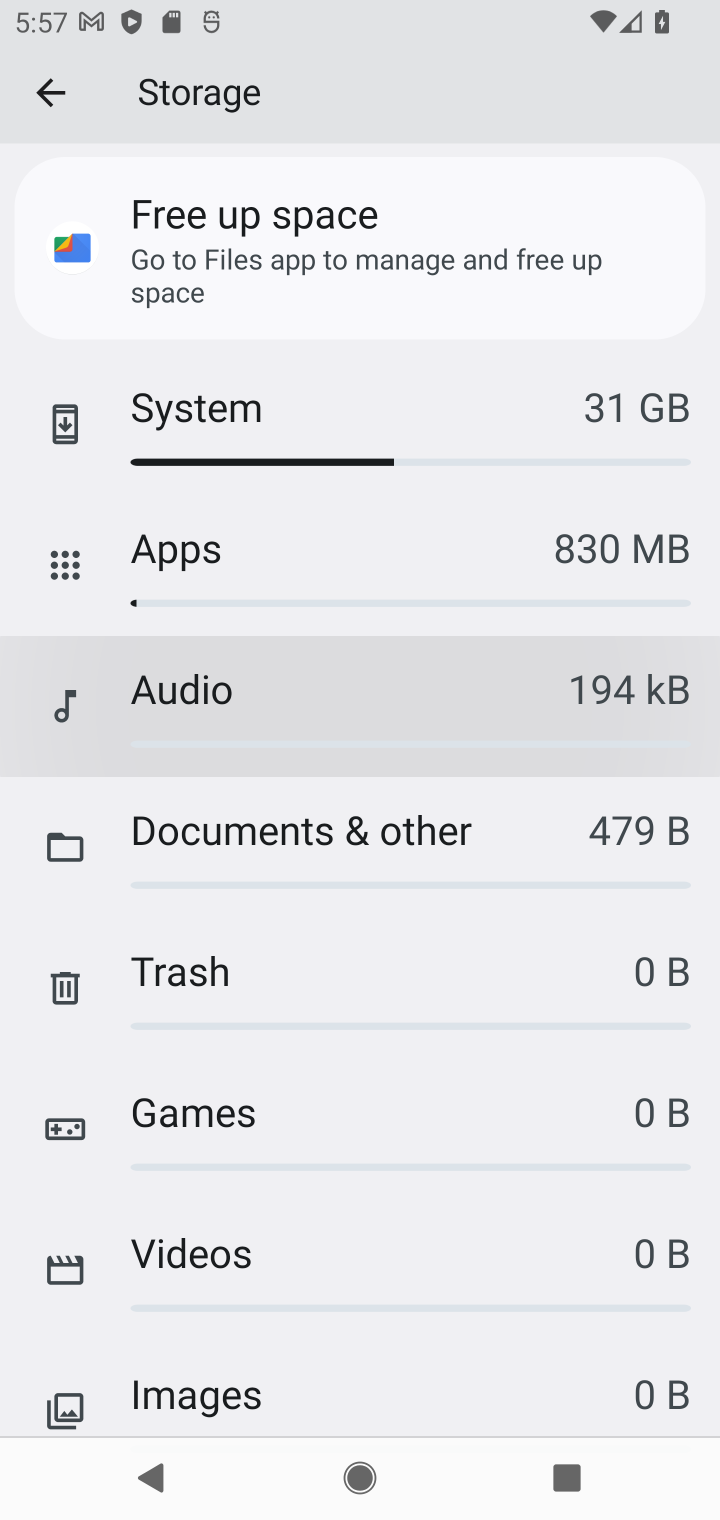
Step 33: click (552, 528)
Your task to perform on an android device: Open the settings Image 34: 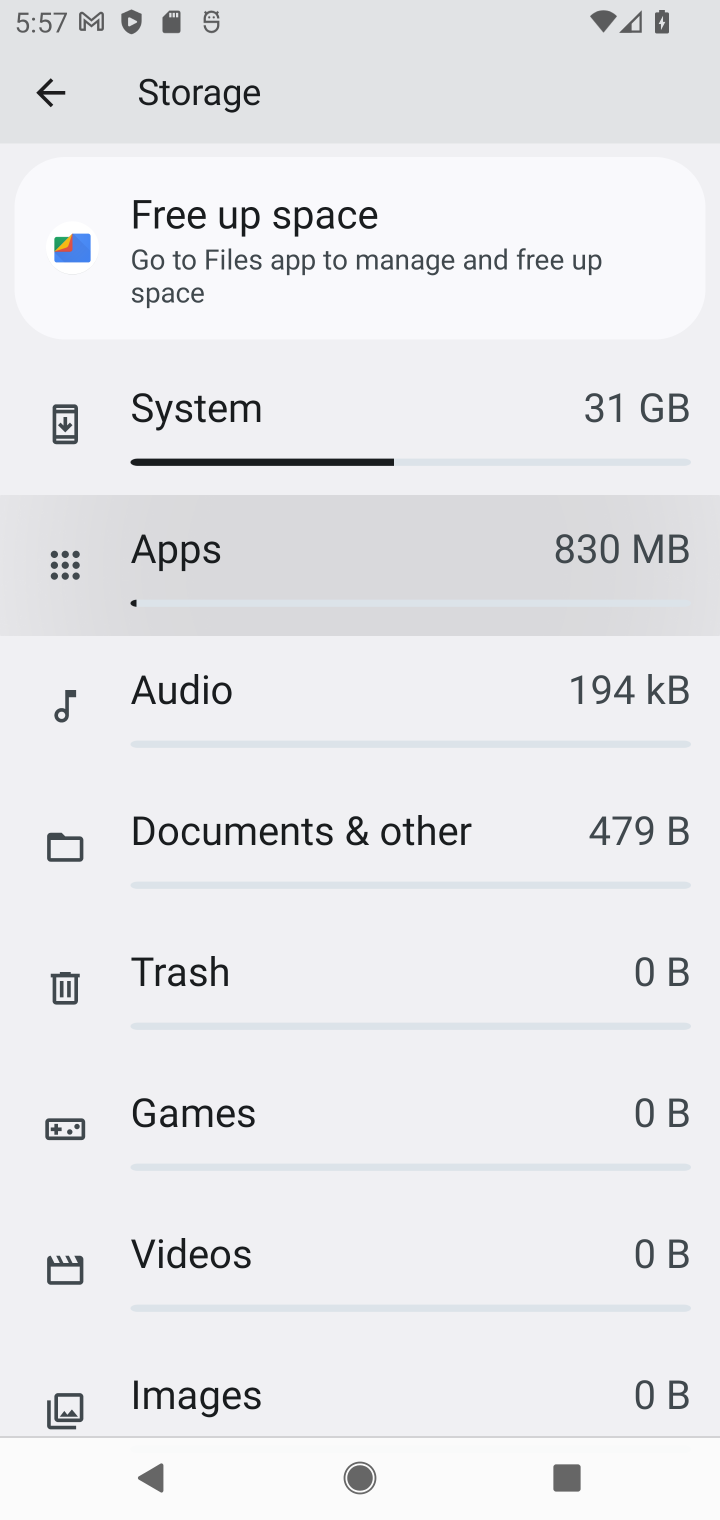
Step 34: drag from (550, 717) to (562, 500)
Your task to perform on an android device: Open the settings Image 35: 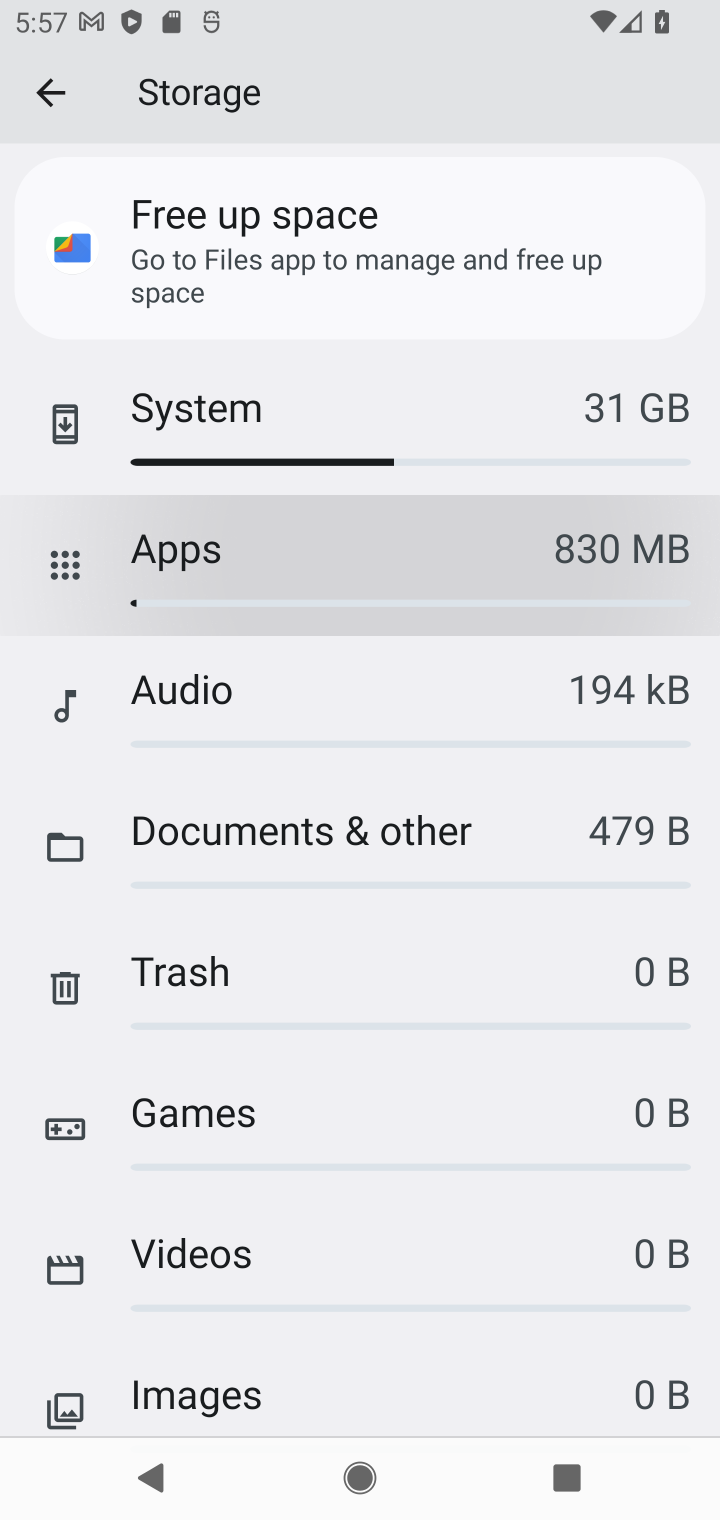
Step 35: drag from (557, 876) to (578, 530)
Your task to perform on an android device: Open the settings Image 36: 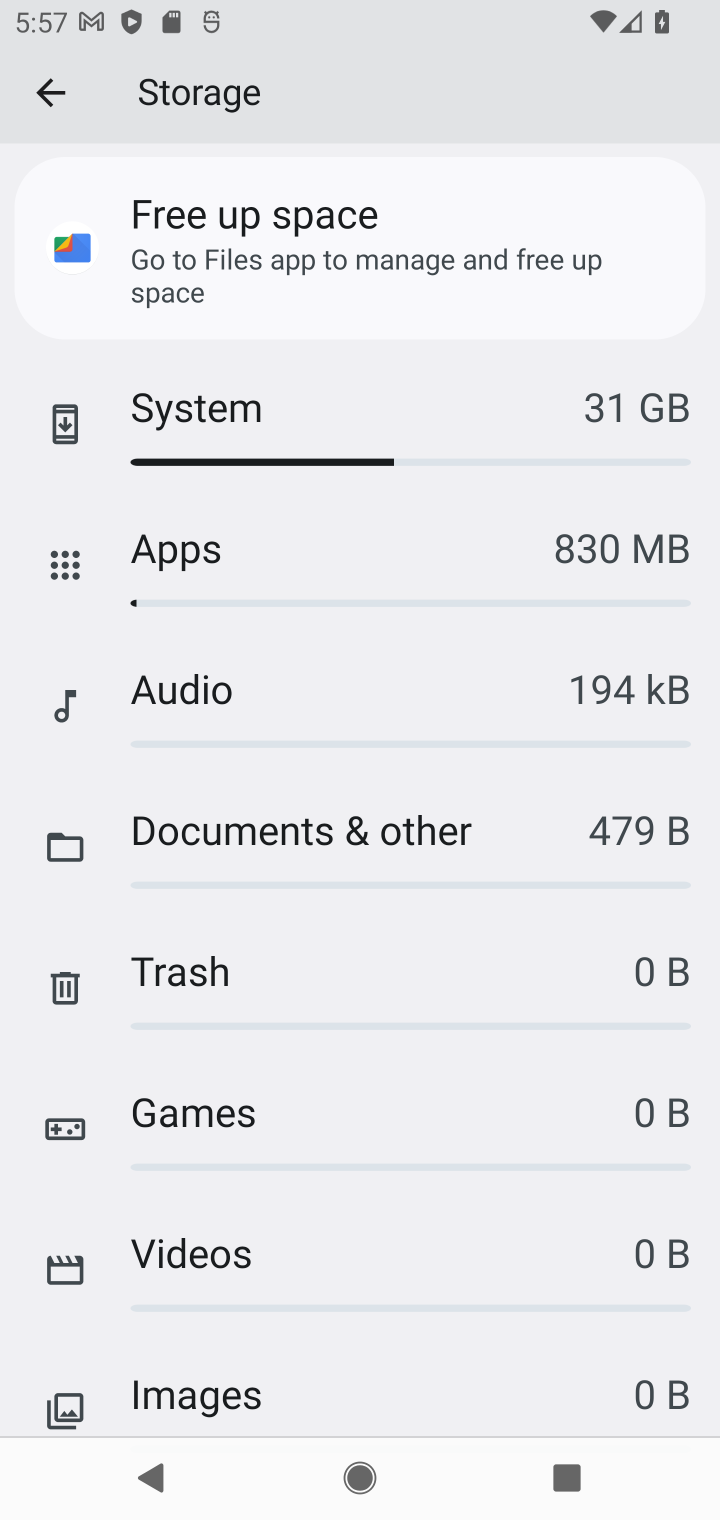
Step 36: click (649, 695)
Your task to perform on an android device: Open the settings Image 37: 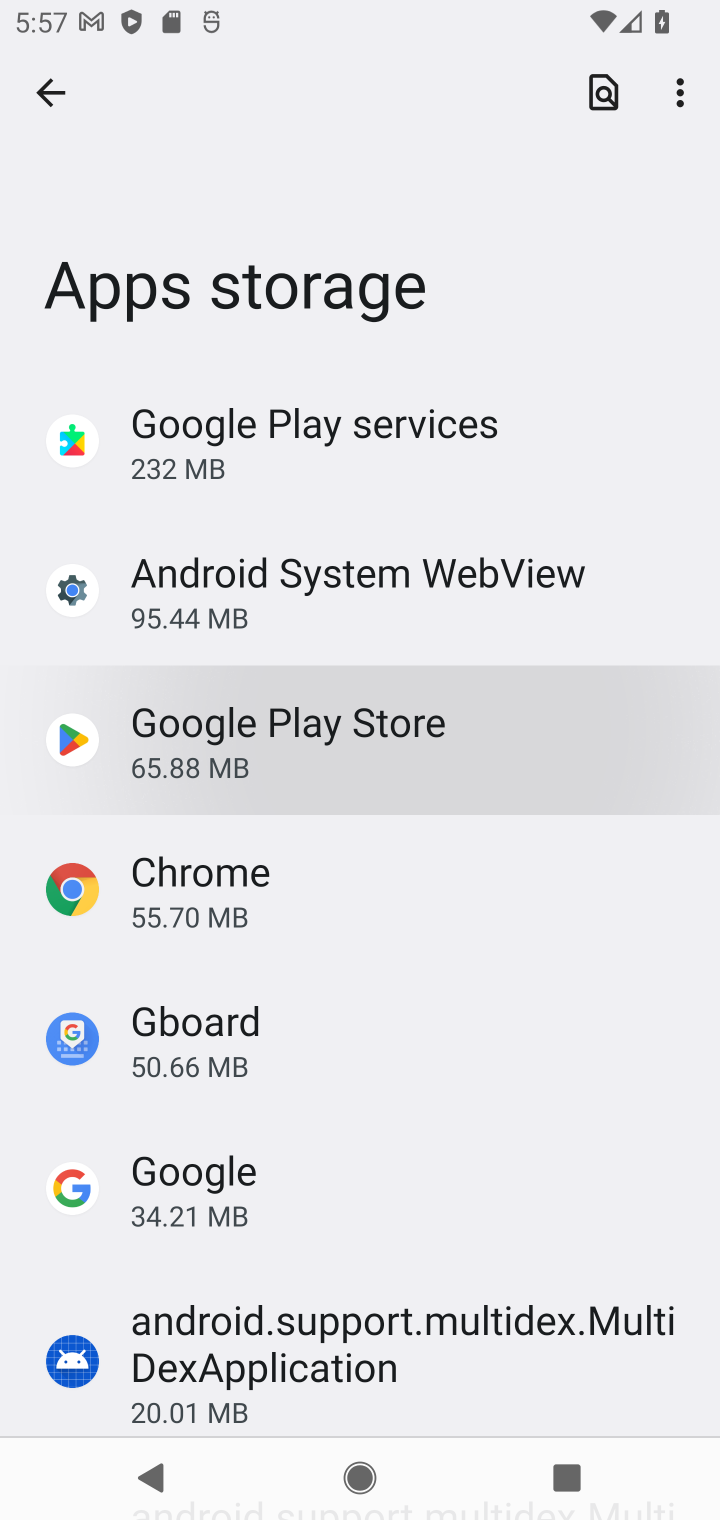
Step 37: task complete